Your task to perform on an android device: Go to Maps Image 0: 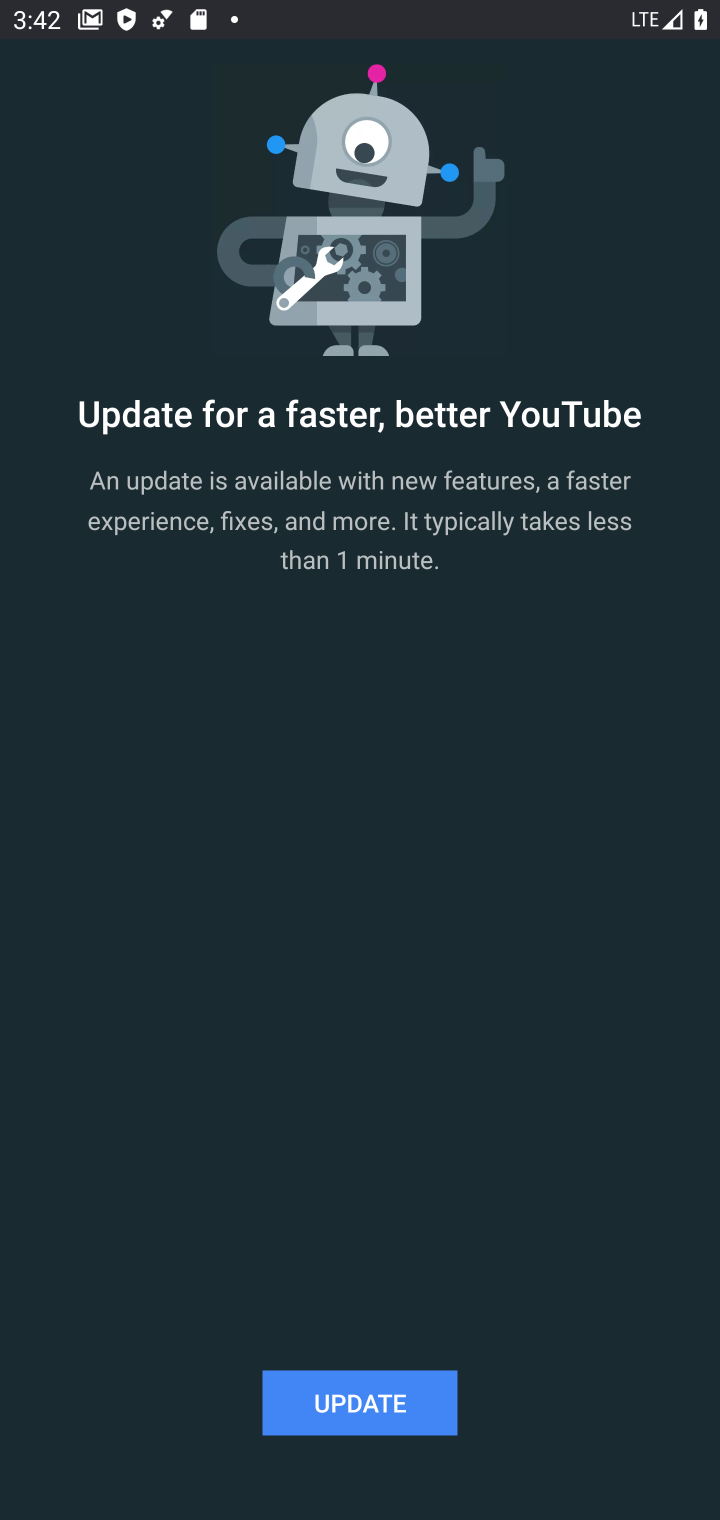
Step 0: press back button
Your task to perform on an android device: Go to Maps Image 1: 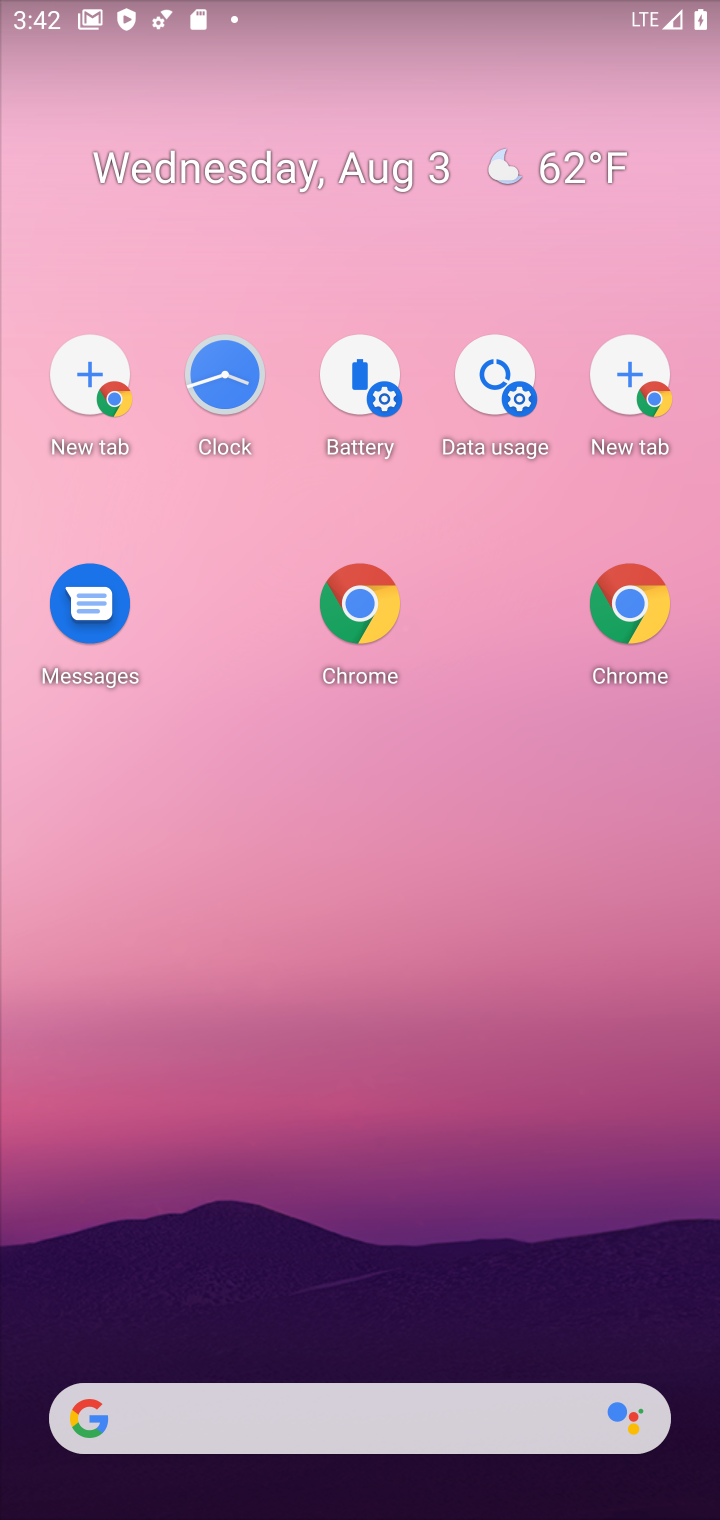
Step 1: drag from (324, 597) to (393, 587)
Your task to perform on an android device: Go to Maps Image 2: 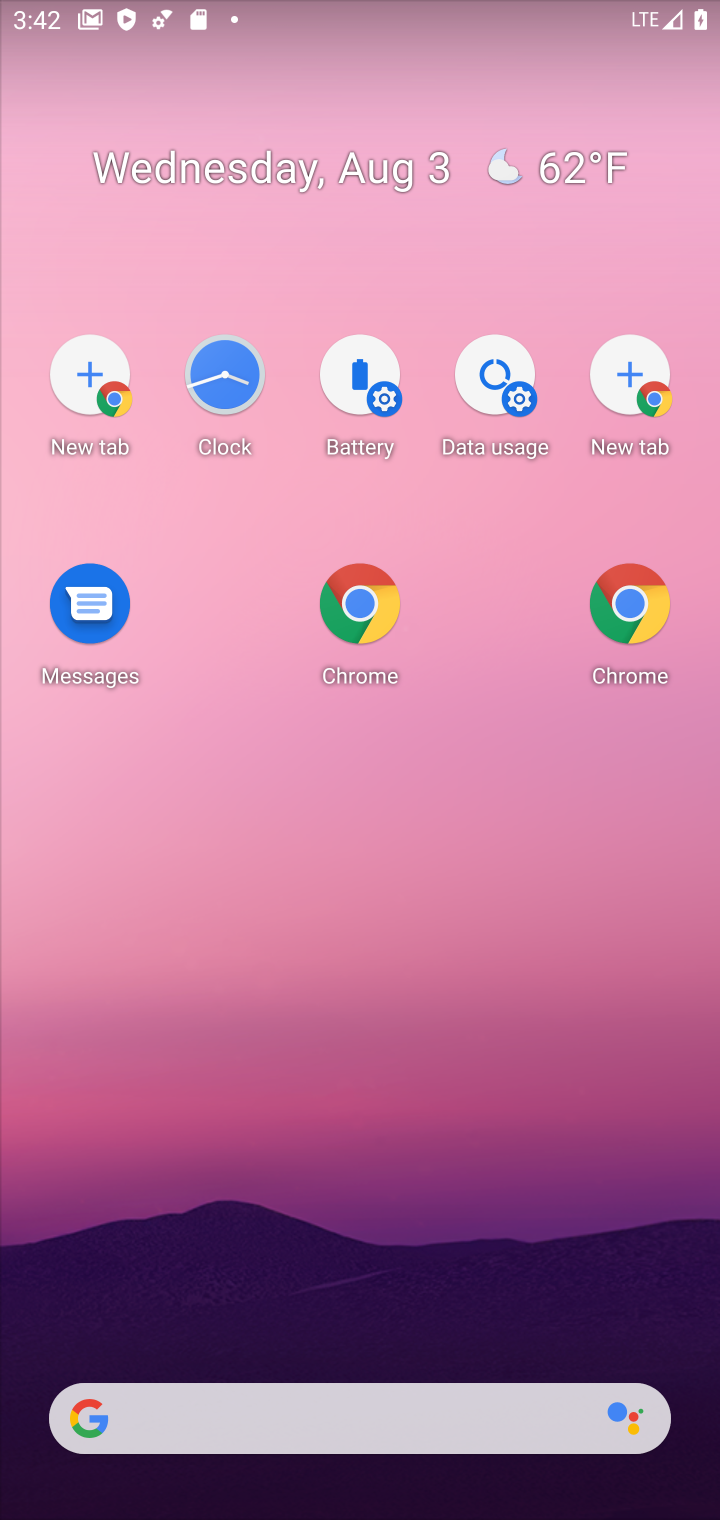
Step 2: press back button
Your task to perform on an android device: Go to Maps Image 3: 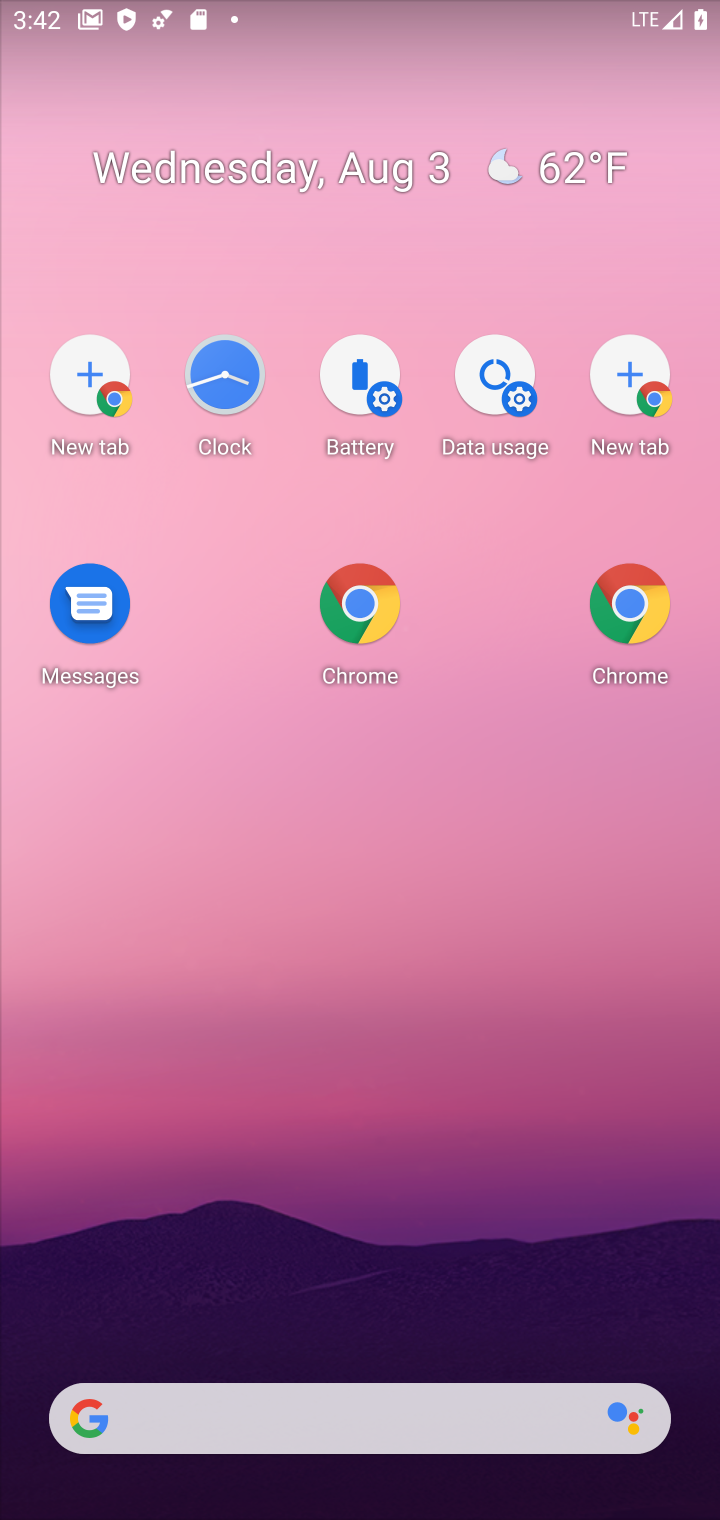
Step 3: click (499, 769)
Your task to perform on an android device: Go to Maps Image 4: 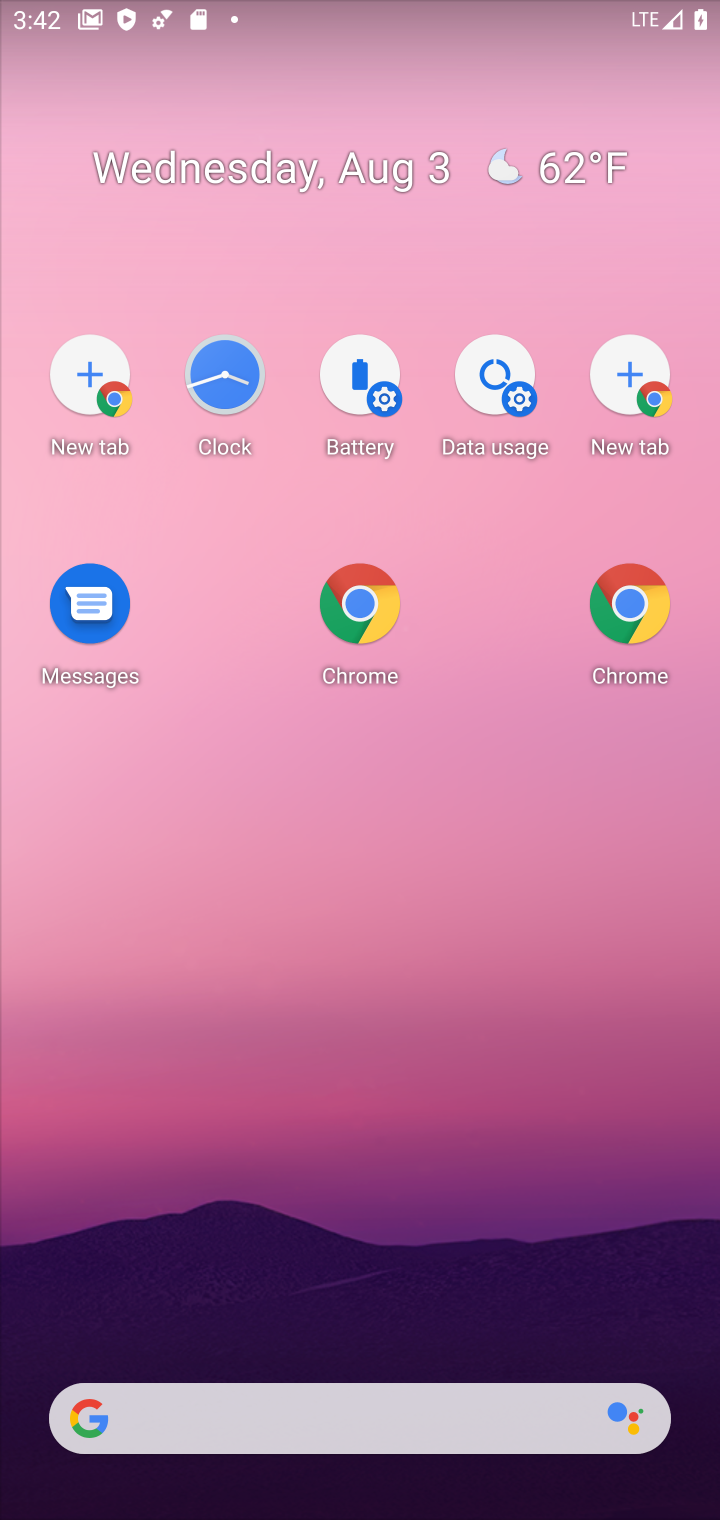
Step 4: drag from (475, 1017) to (595, 847)
Your task to perform on an android device: Go to Maps Image 5: 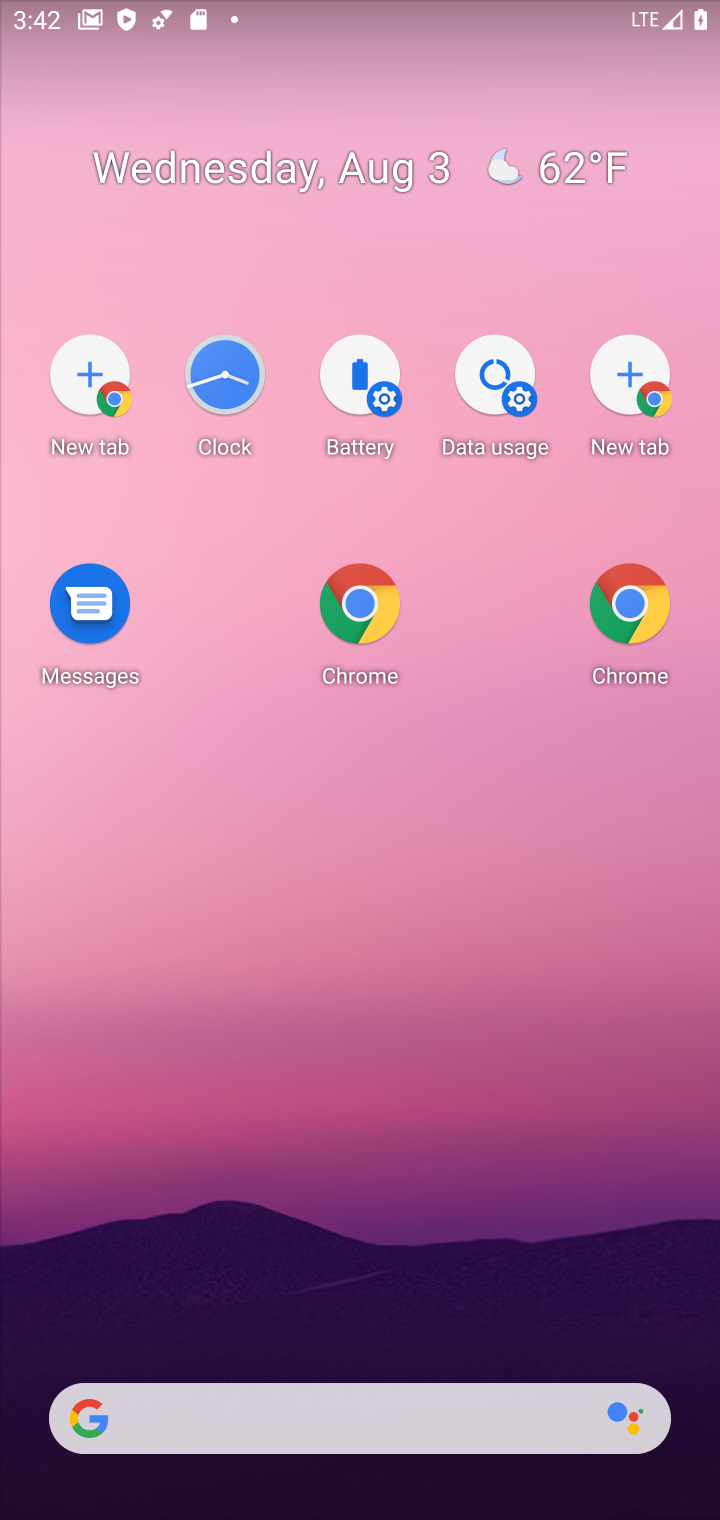
Step 5: drag from (463, 1396) to (223, 392)
Your task to perform on an android device: Go to Maps Image 6: 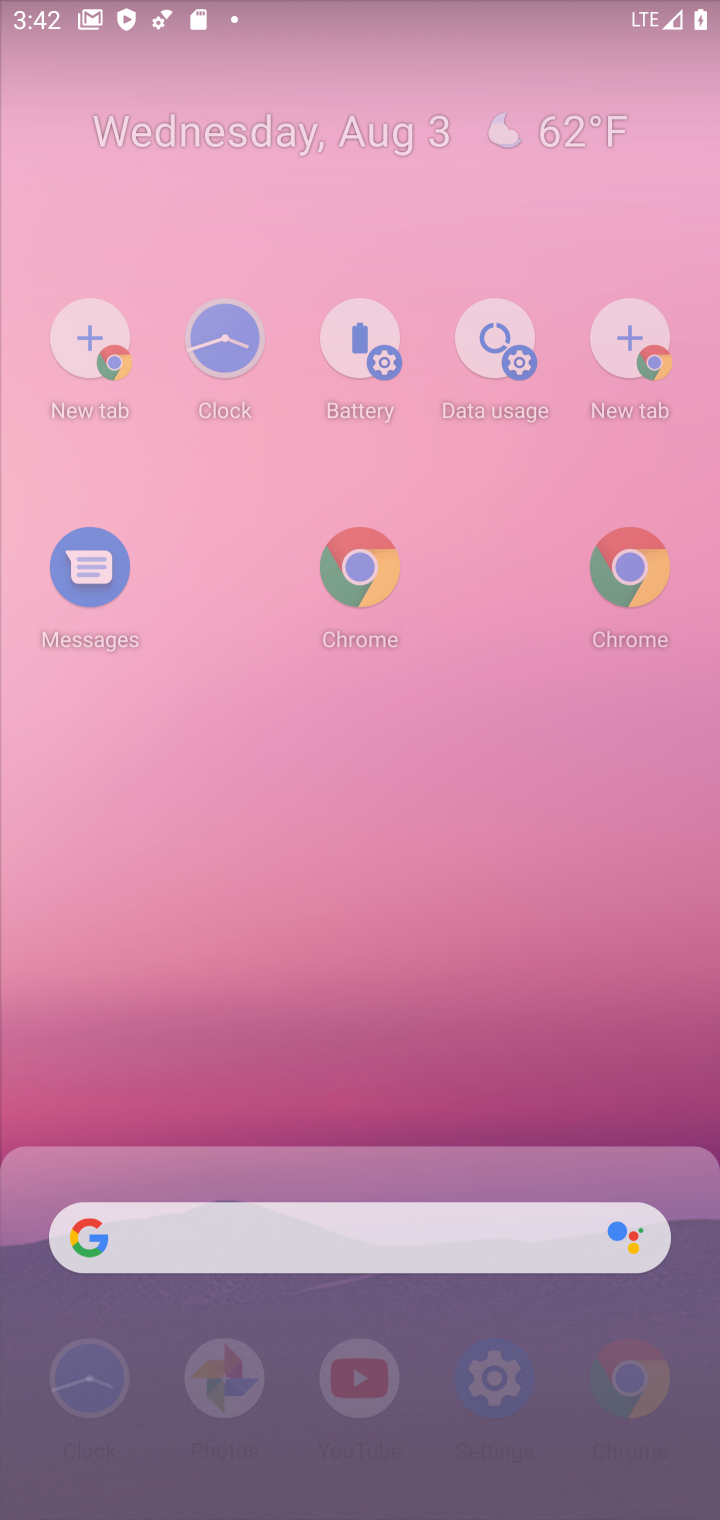
Step 6: click (357, 419)
Your task to perform on an android device: Go to Maps Image 7: 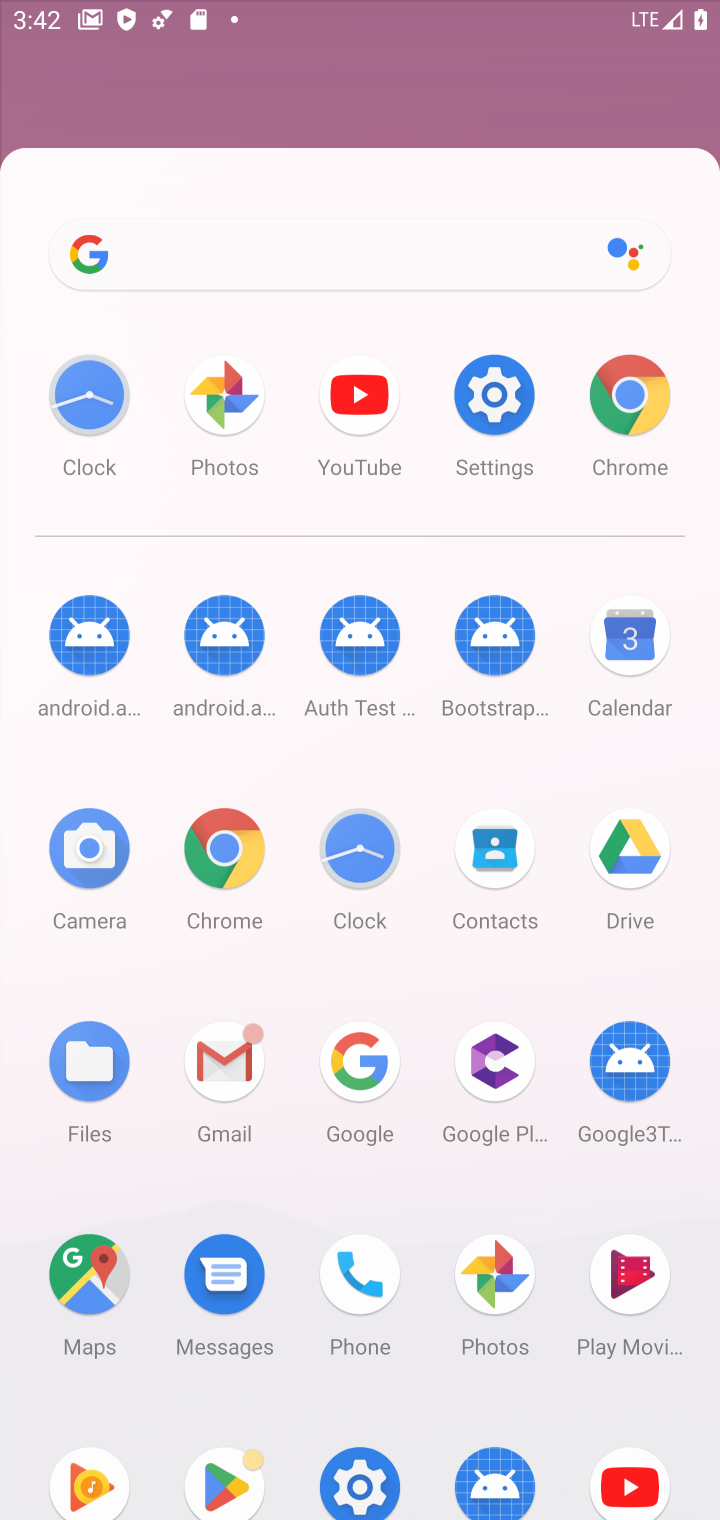
Step 7: drag from (317, 1299) to (310, 254)
Your task to perform on an android device: Go to Maps Image 8: 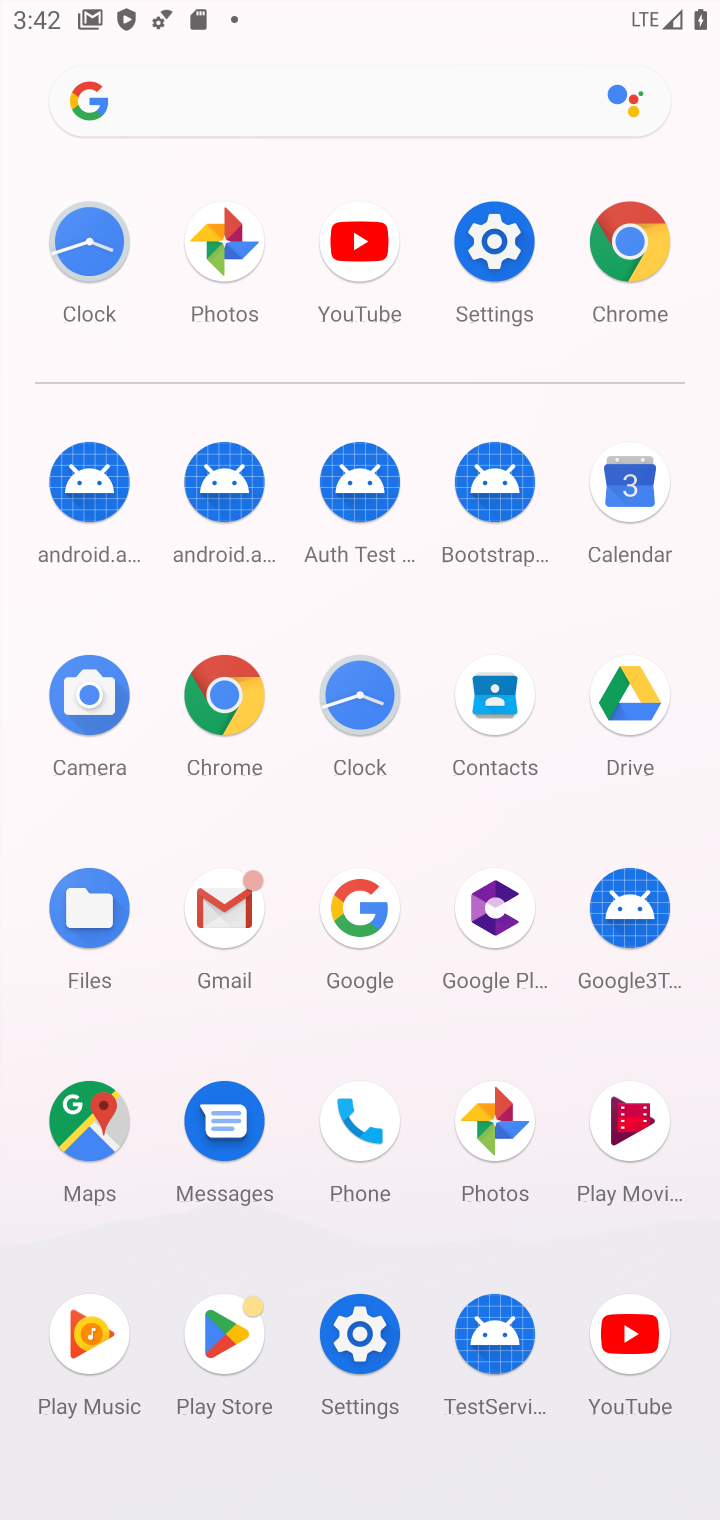
Step 8: click (77, 1107)
Your task to perform on an android device: Go to Maps Image 9: 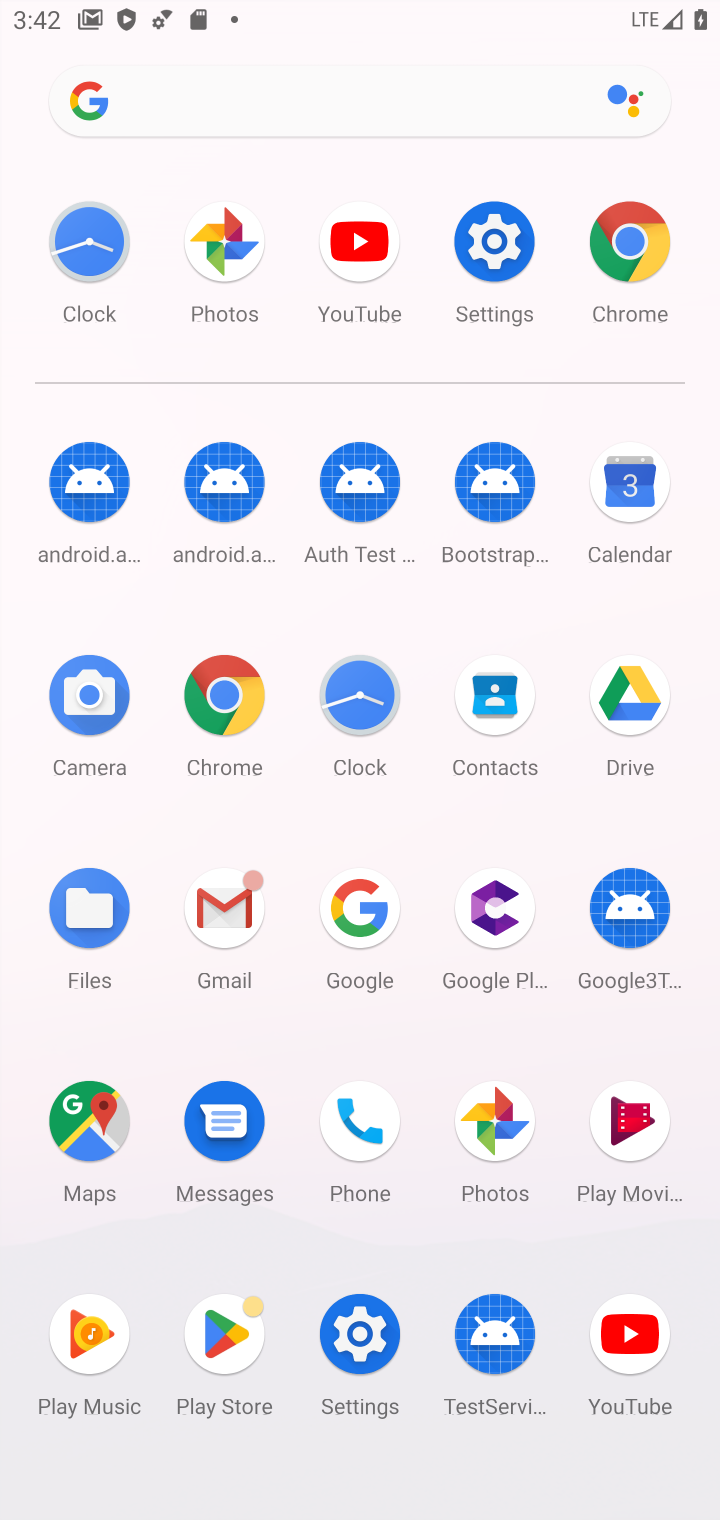
Step 9: click (72, 1103)
Your task to perform on an android device: Go to Maps Image 10: 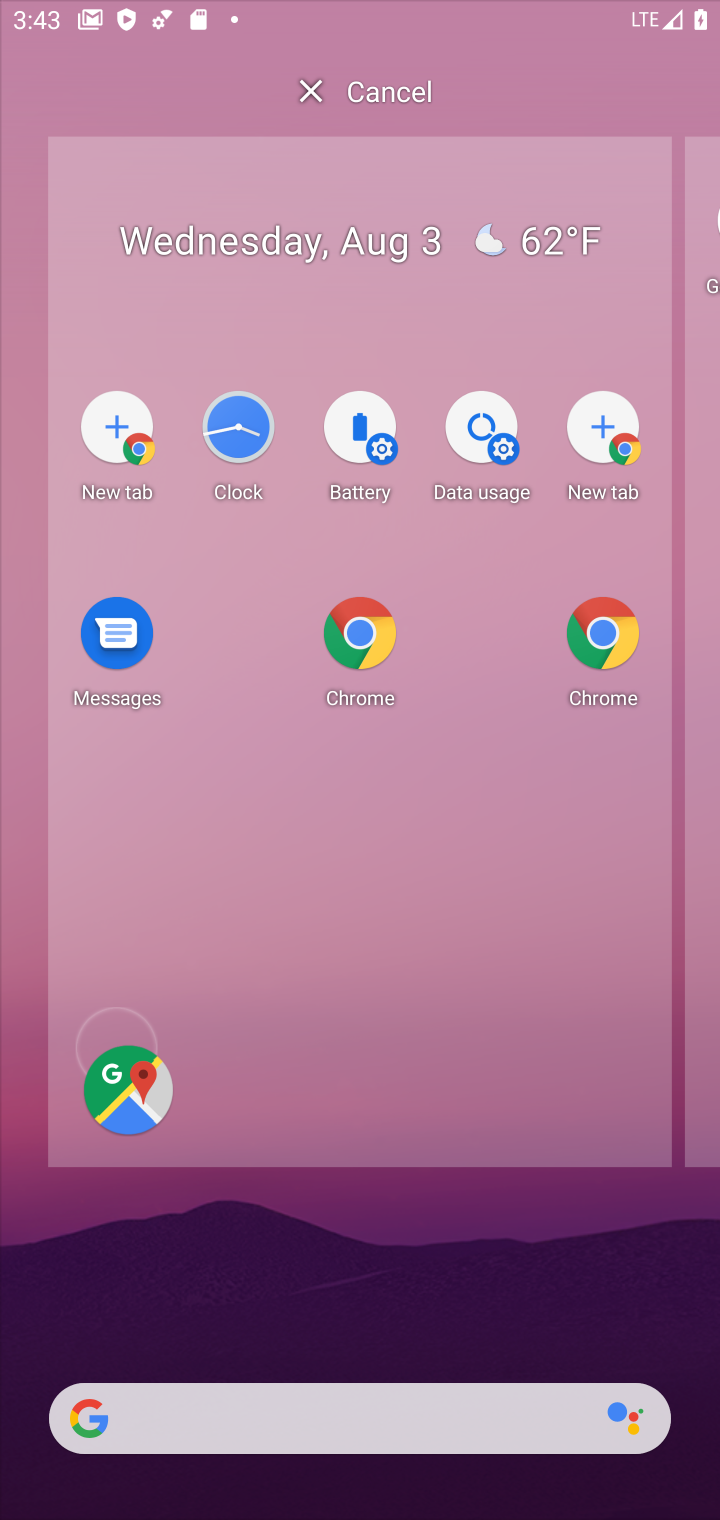
Step 10: drag from (442, 1283) to (452, 738)
Your task to perform on an android device: Go to Maps Image 11: 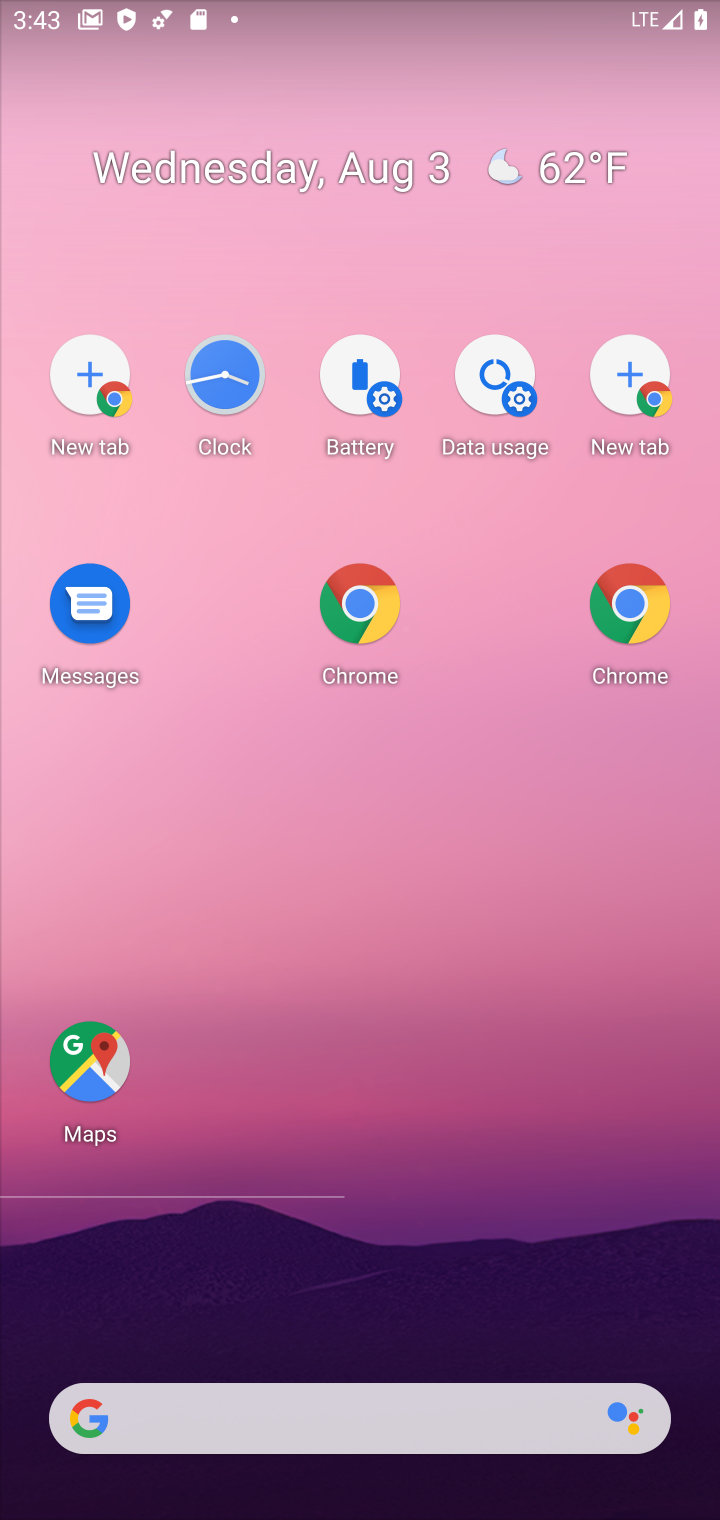
Step 11: drag from (480, 1115) to (576, 390)
Your task to perform on an android device: Go to Maps Image 12: 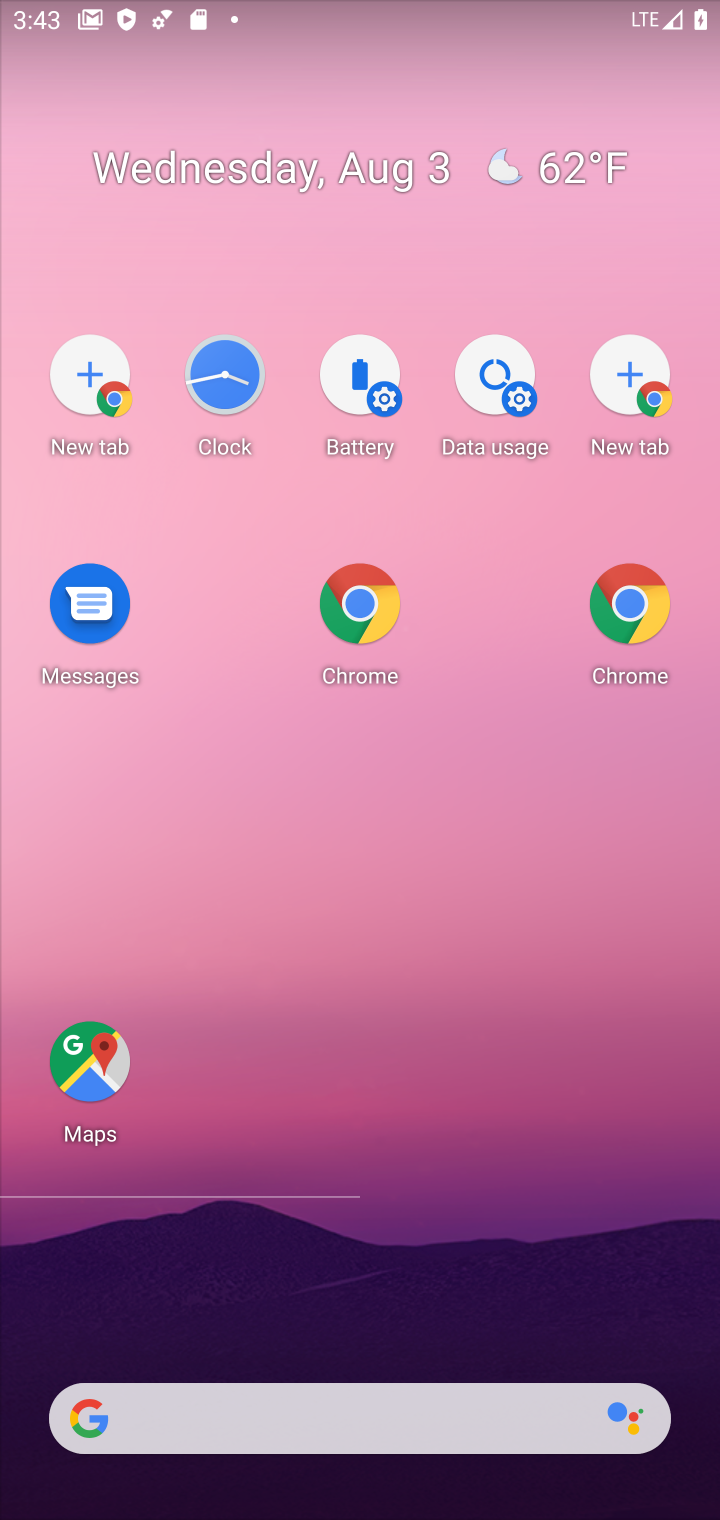
Step 12: click (534, 342)
Your task to perform on an android device: Go to Maps Image 13: 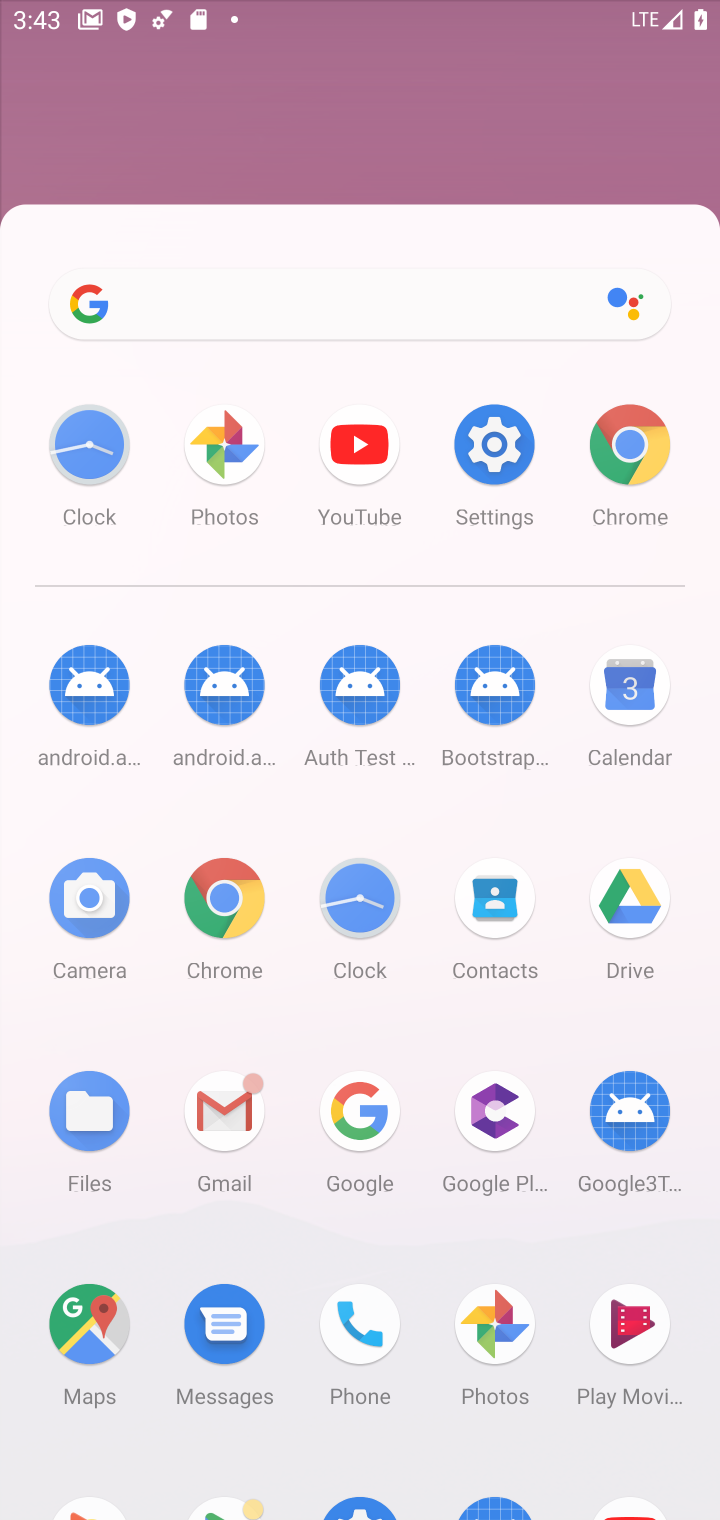
Step 13: drag from (516, 421) to (574, 342)
Your task to perform on an android device: Go to Maps Image 14: 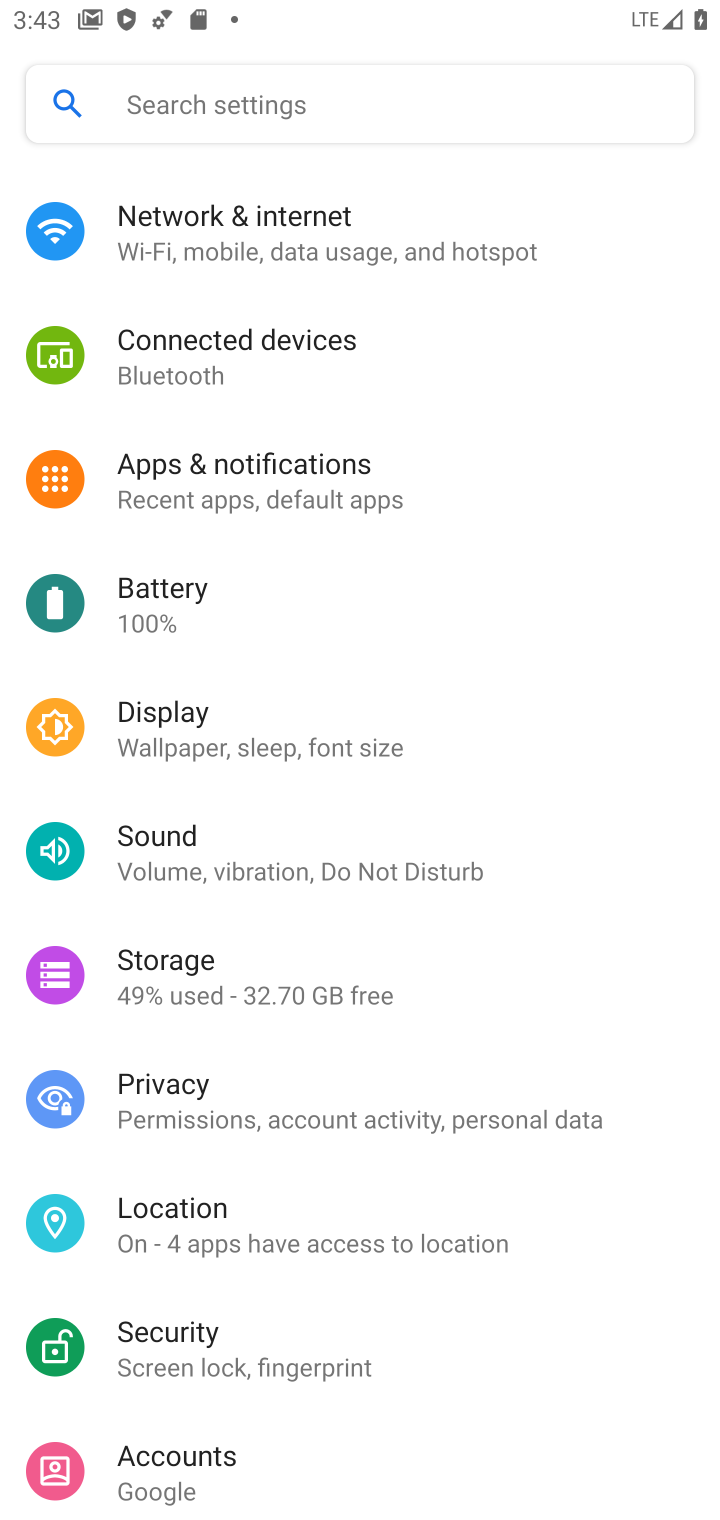
Step 14: click (106, 1128)
Your task to perform on an android device: Go to Maps Image 15: 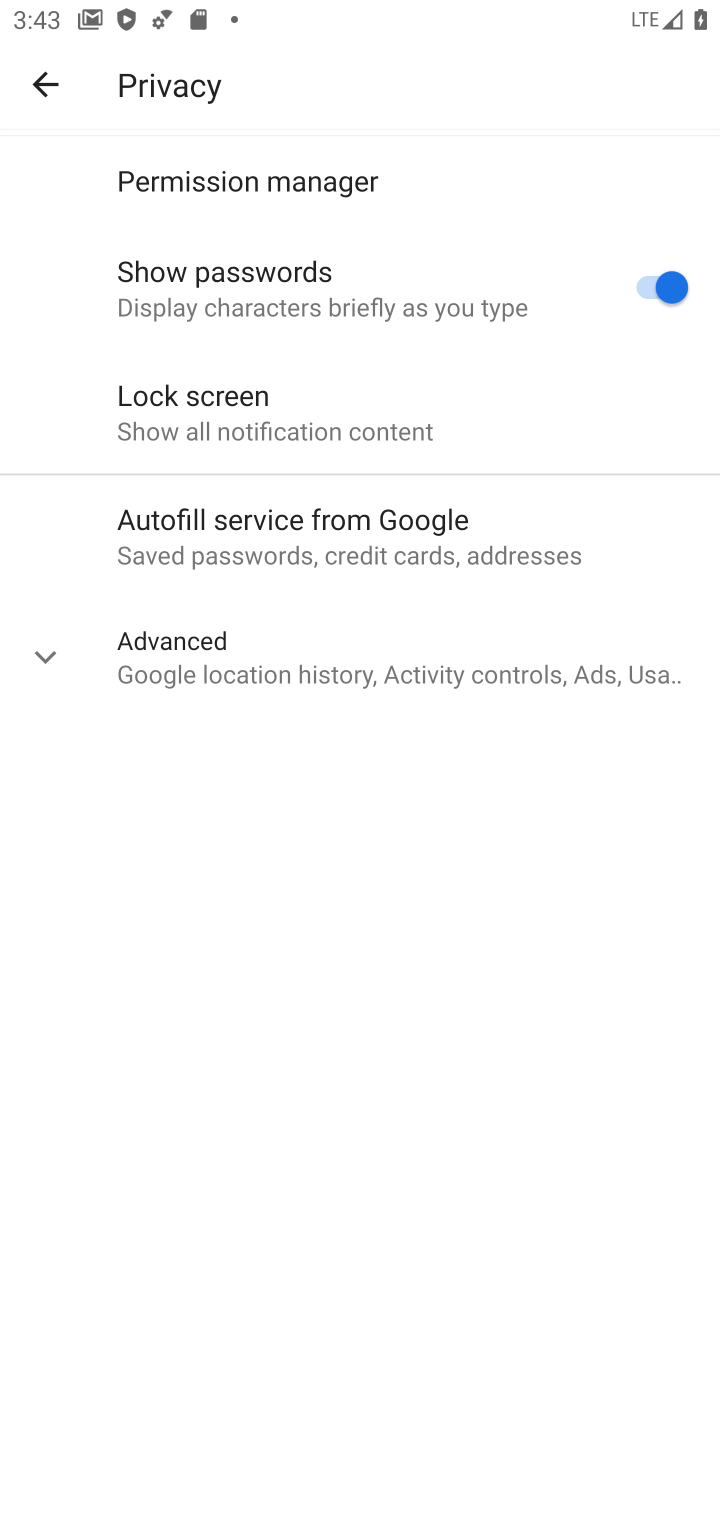
Step 15: press back button
Your task to perform on an android device: Go to Maps Image 16: 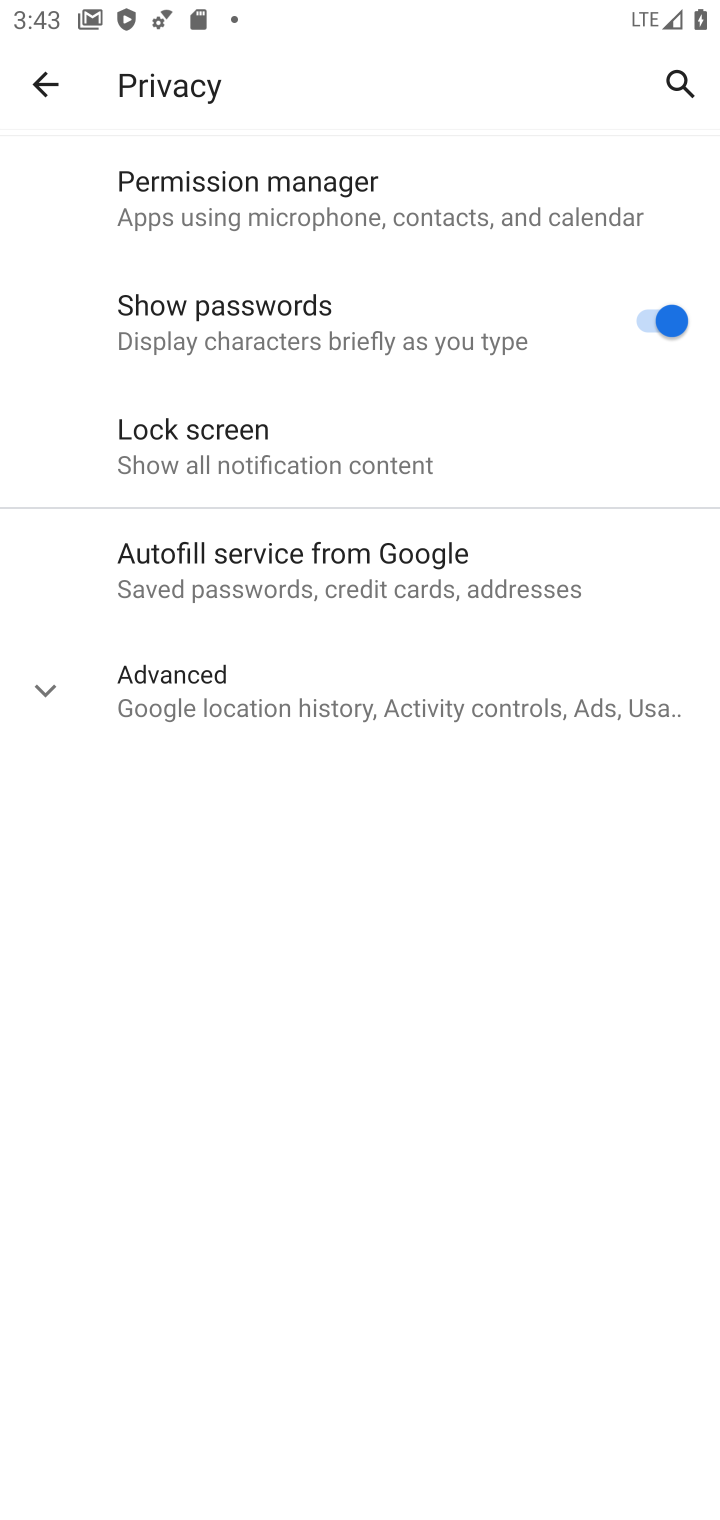
Step 16: press back button
Your task to perform on an android device: Go to Maps Image 17: 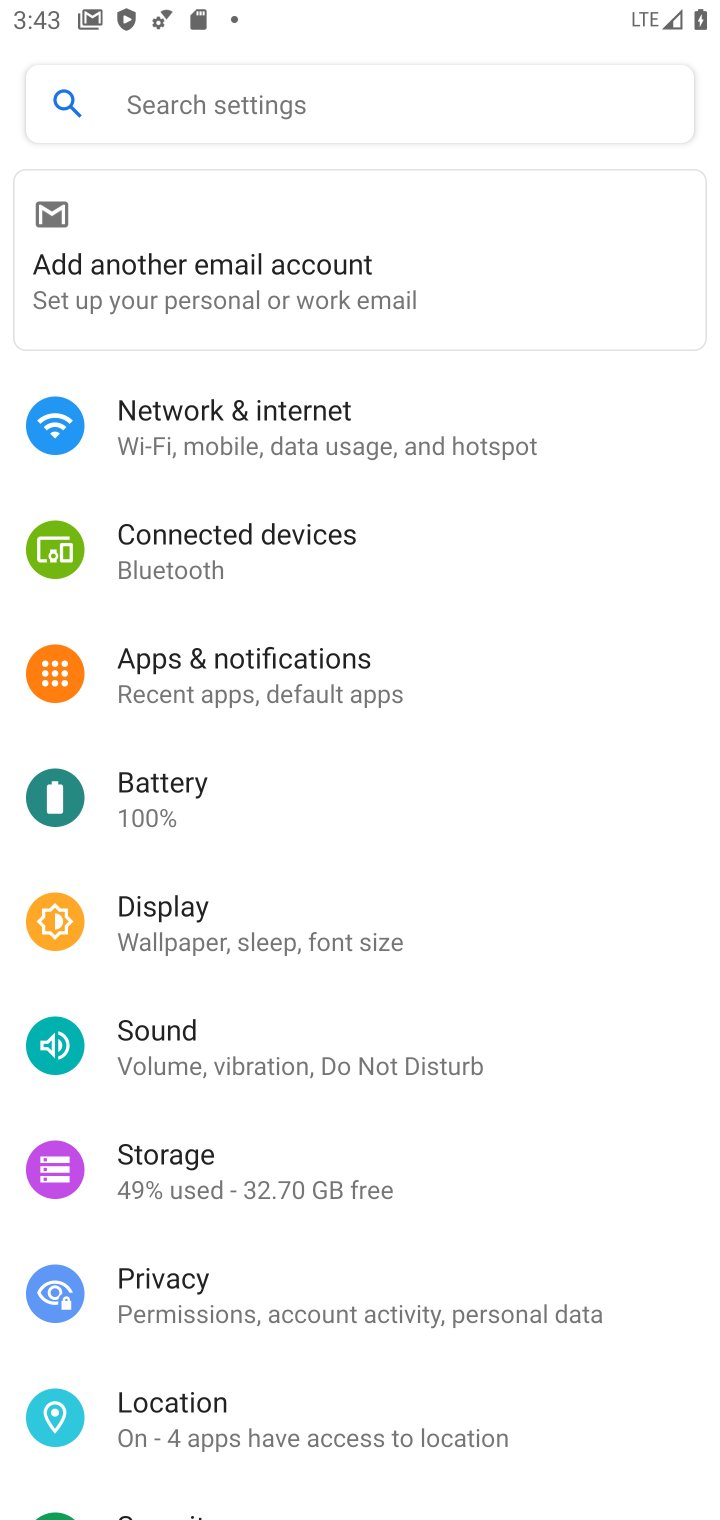
Step 17: click (64, 79)
Your task to perform on an android device: Go to Maps Image 18: 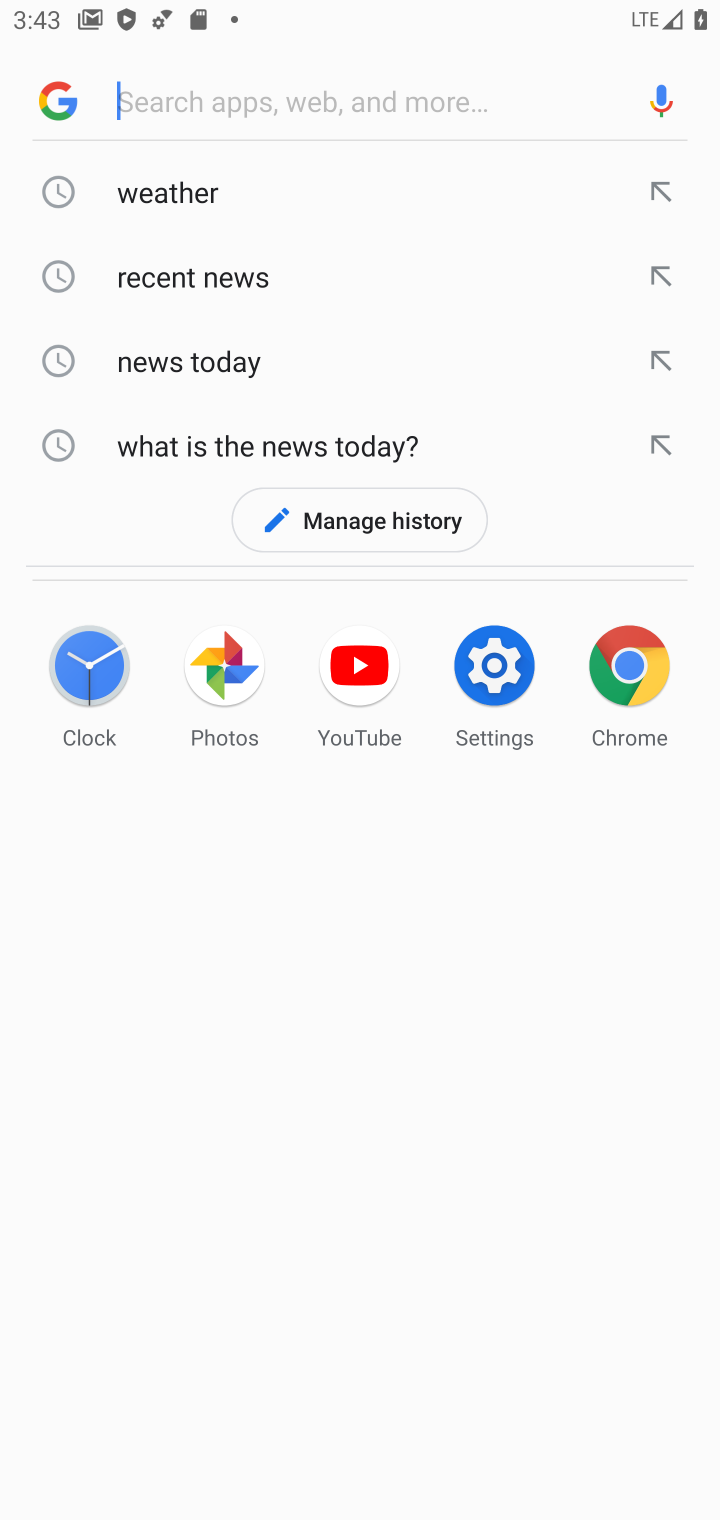
Step 18: press back button
Your task to perform on an android device: Go to Maps Image 19: 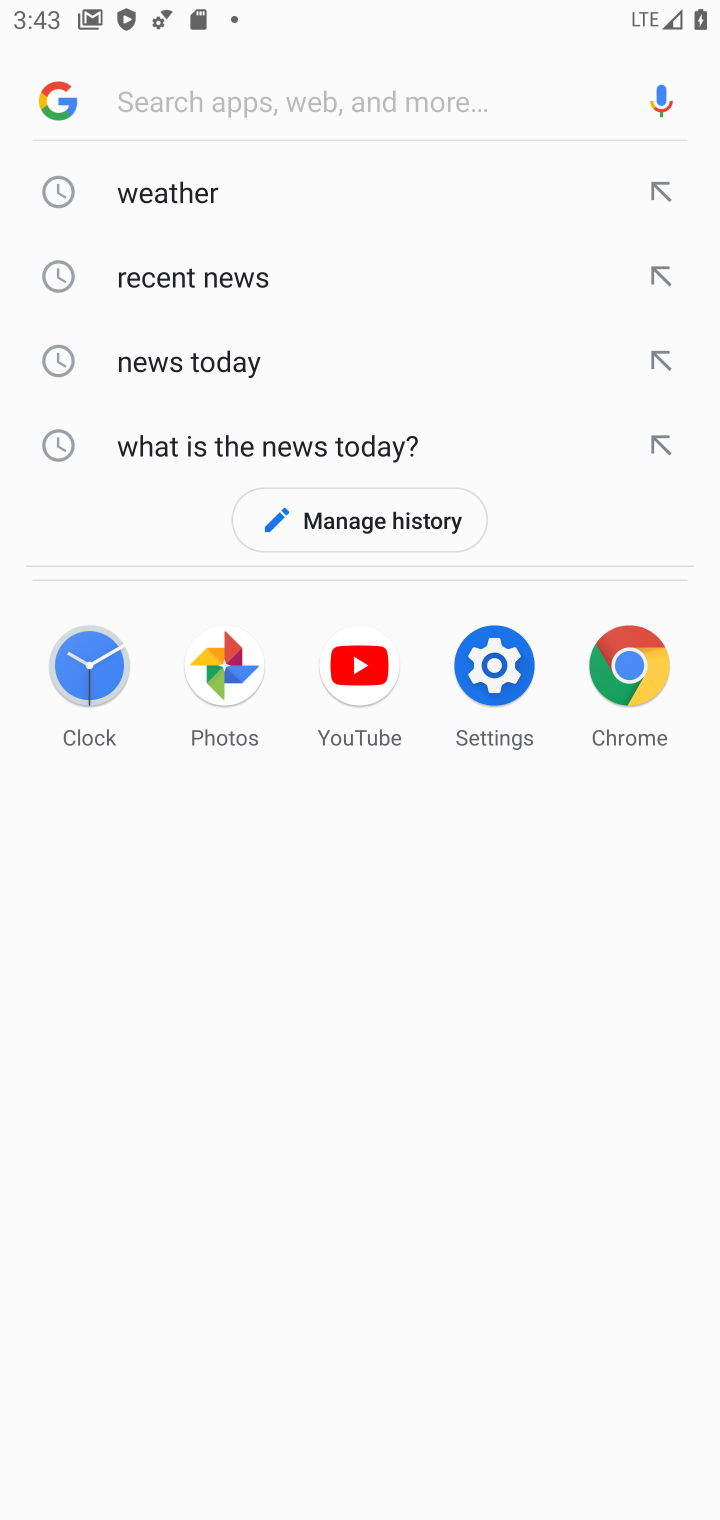
Step 19: press back button
Your task to perform on an android device: Go to Maps Image 20: 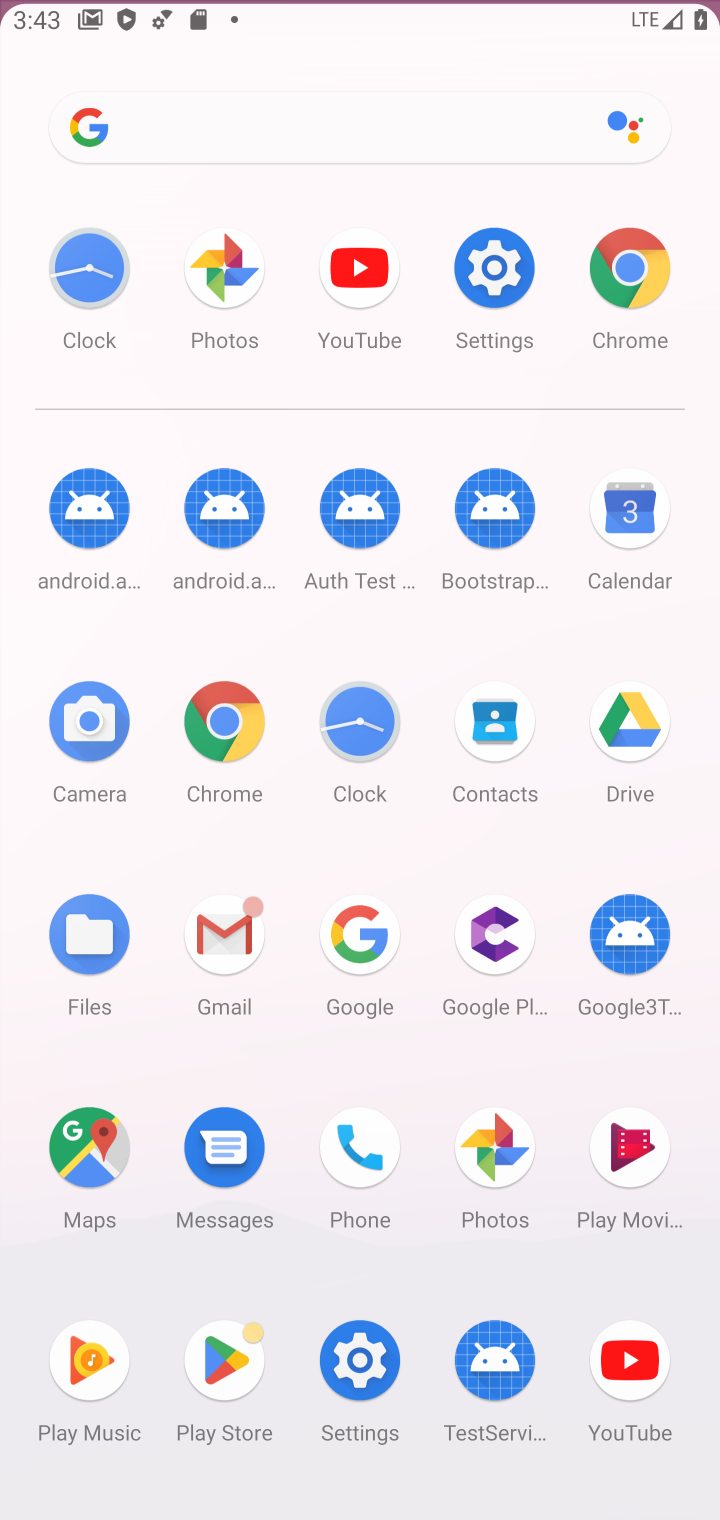
Step 20: press back button
Your task to perform on an android device: Go to Maps Image 21: 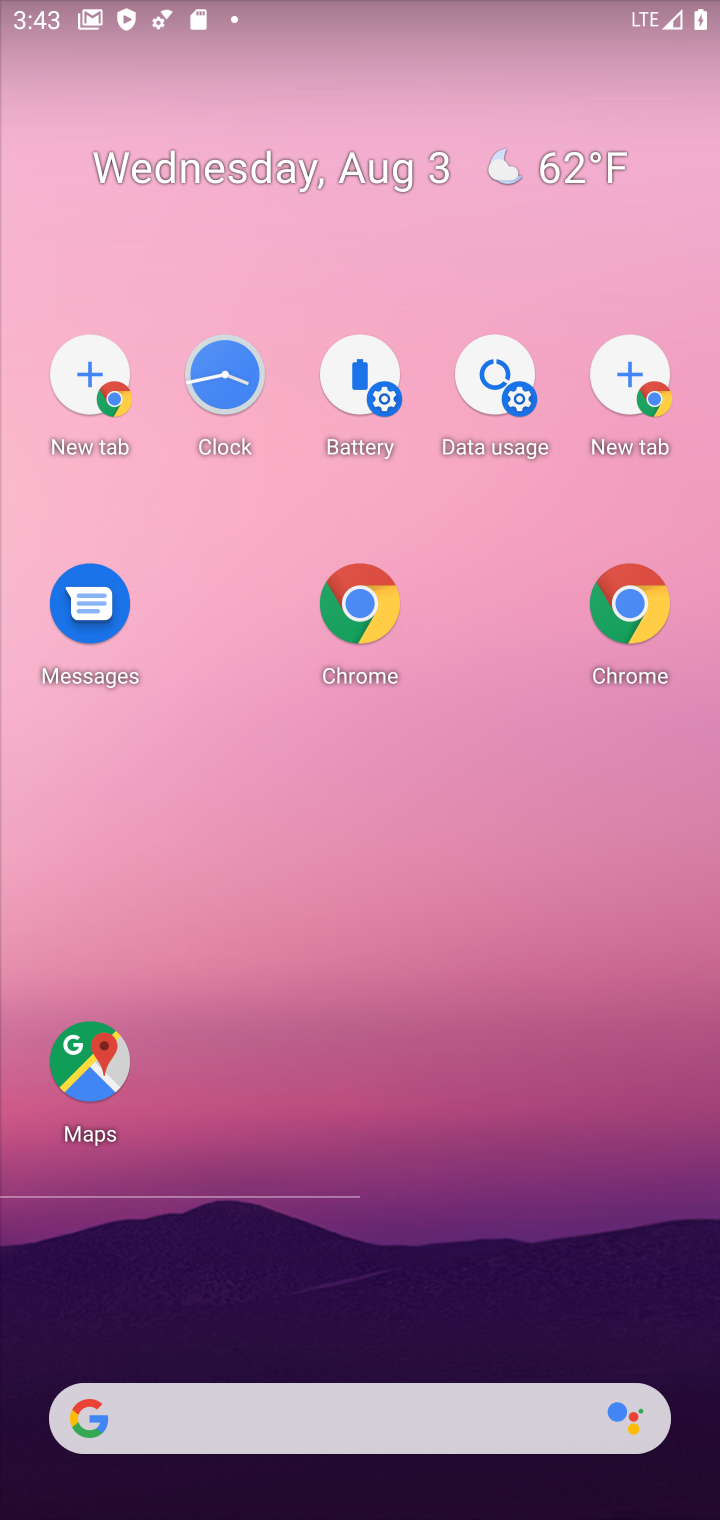
Step 21: click (105, 1059)
Your task to perform on an android device: Go to Maps Image 22: 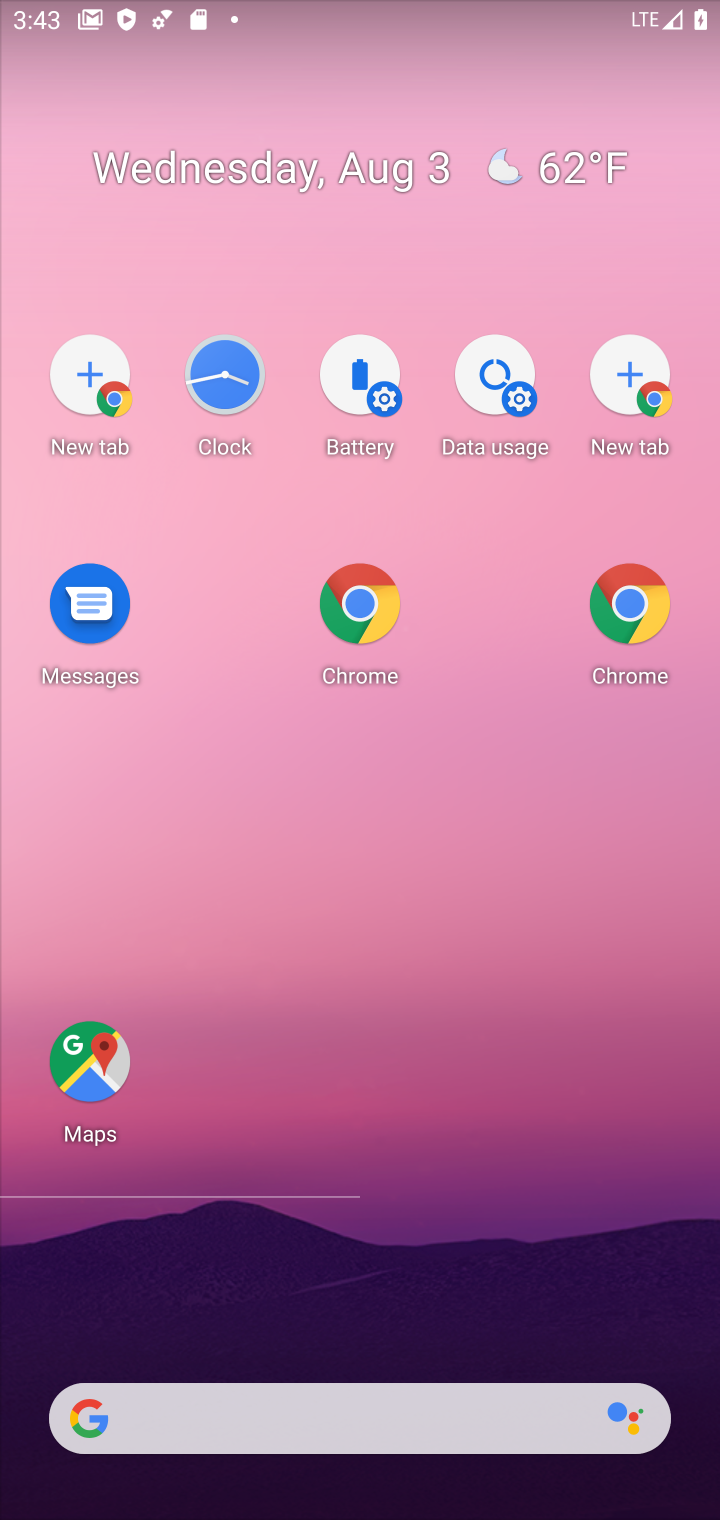
Step 22: click (111, 1059)
Your task to perform on an android device: Go to Maps Image 23: 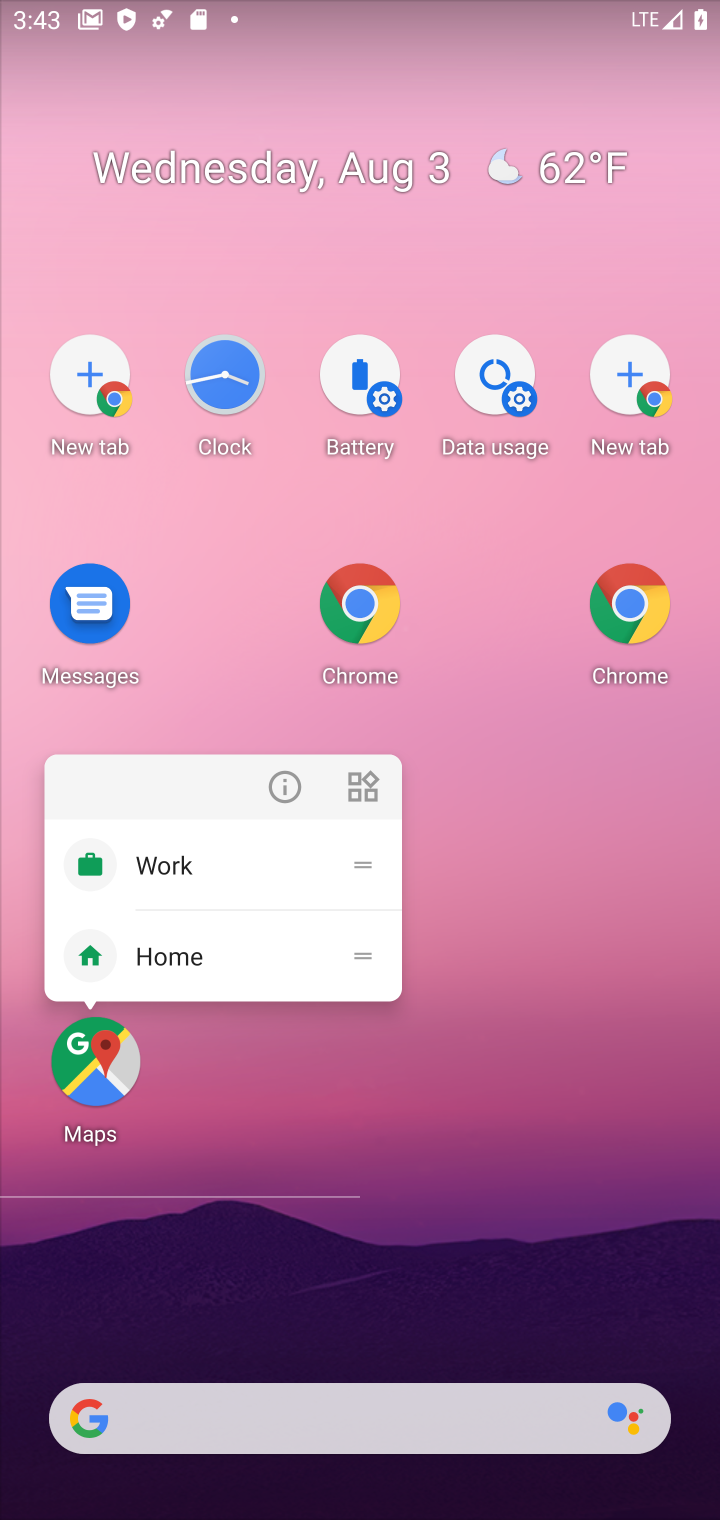
Step 23: click (77, 1059)
Your task to perform on an android device: Go to Maps Image 24: 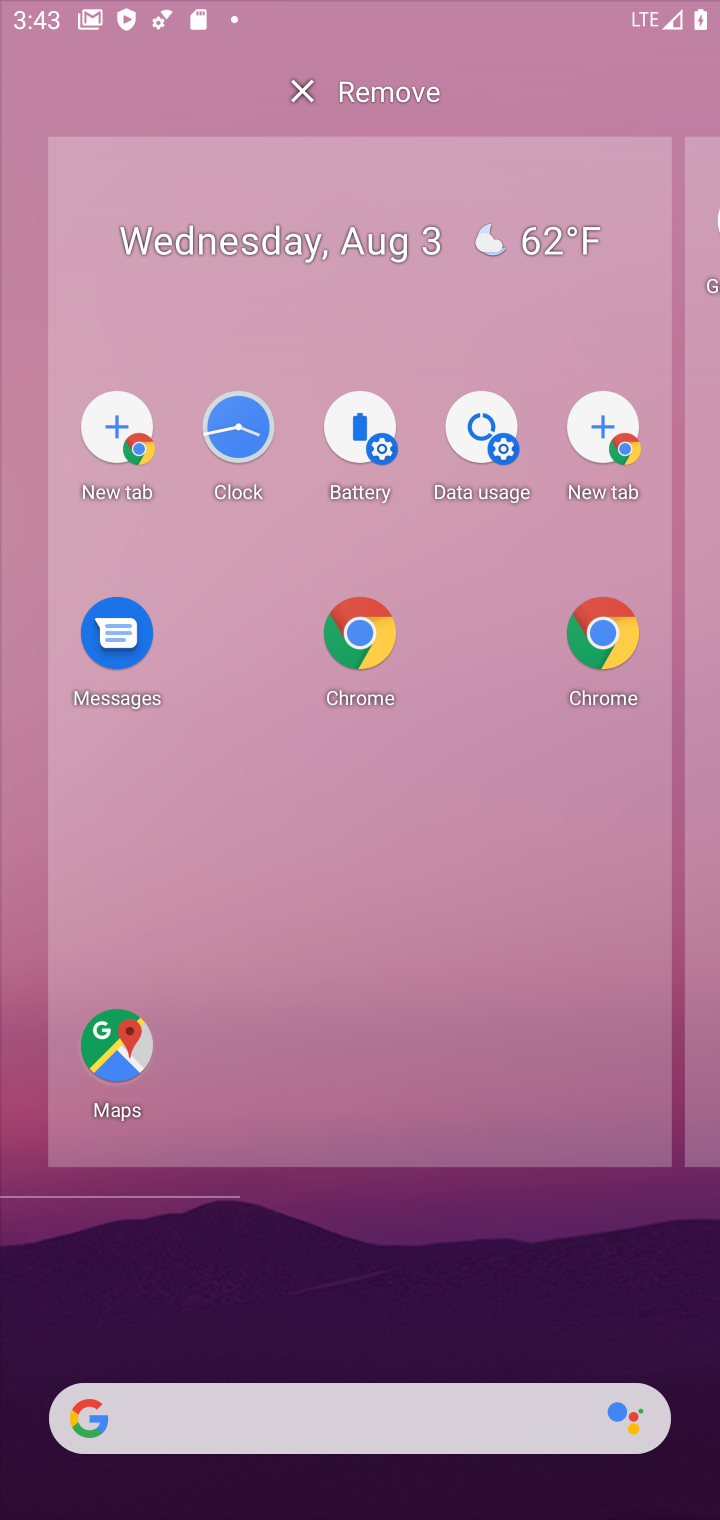
Step 24: drag from (356, 1410) to (486, 543)
Your task to perform on an android device: Go to Maps Image 25: 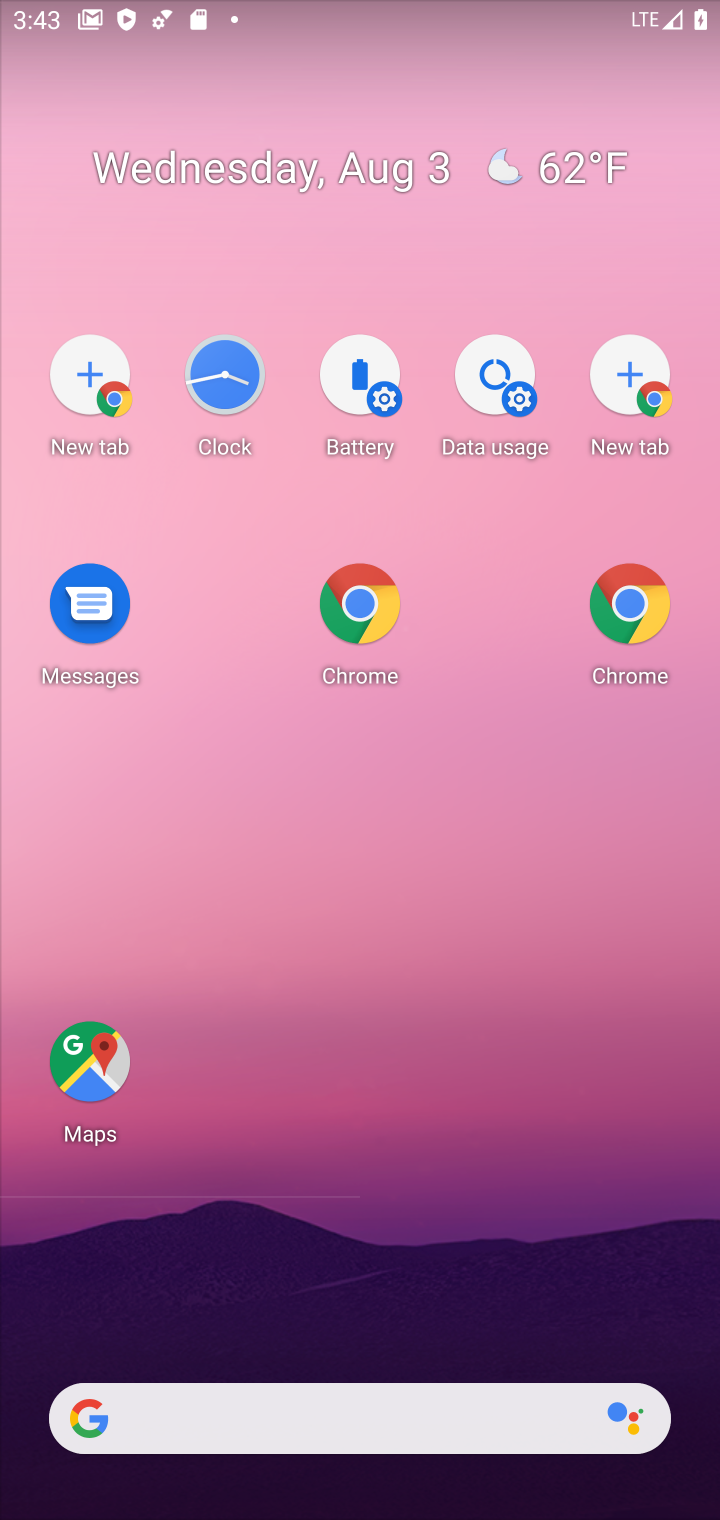
Step 25: drag from (448, 173) to (381, 115)
Your task to perform on an android device: Go to Maps Image 26: 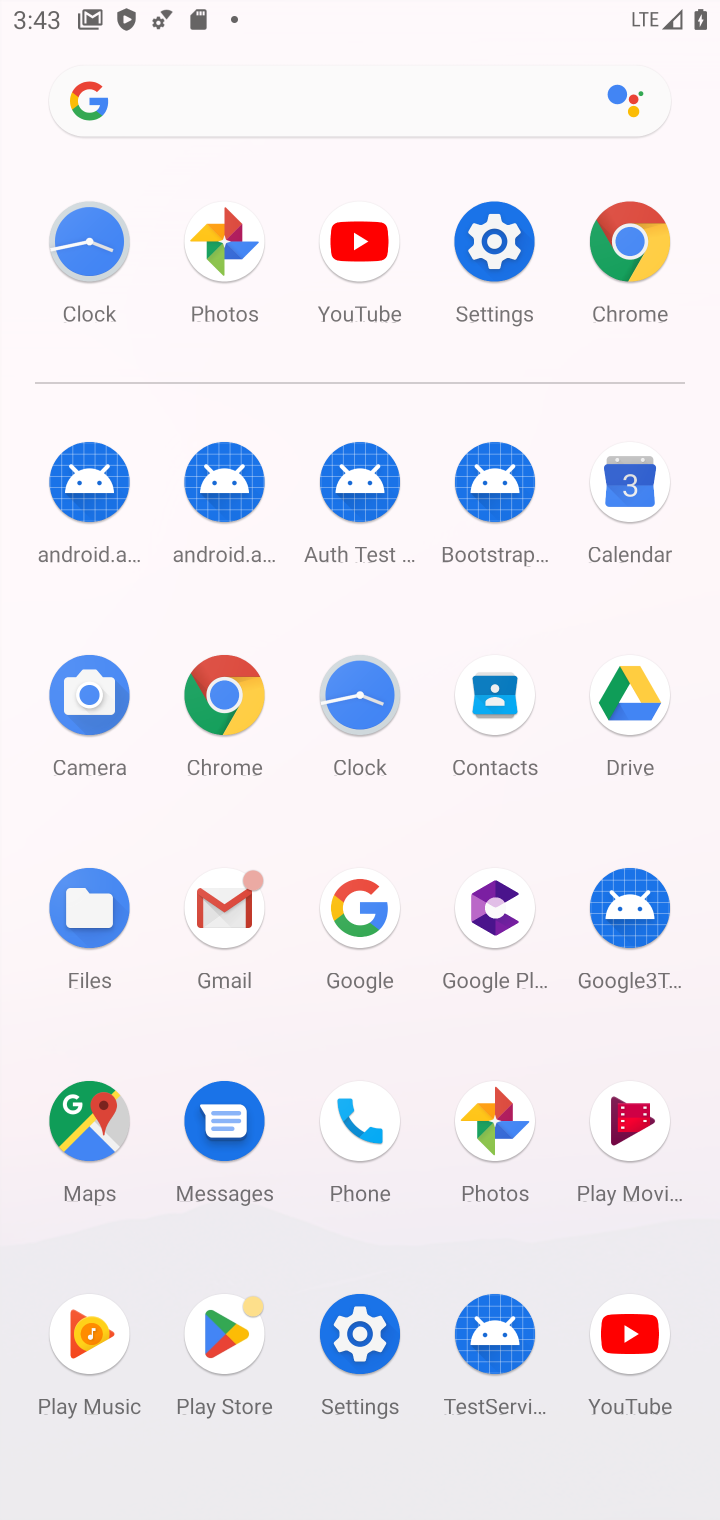
Step 26: click (134, 1092)
Your task to perform on an android device: Go to Maps Image 27: 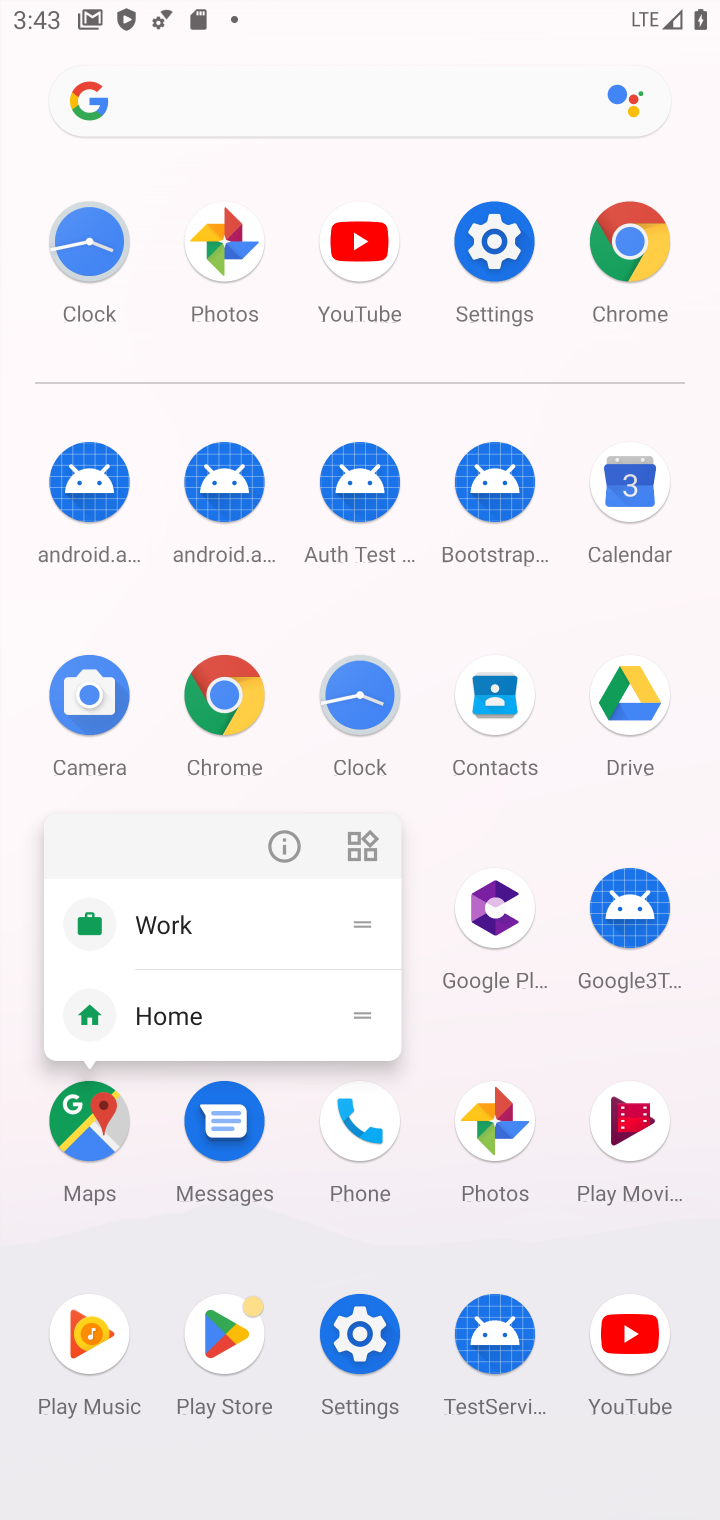
Step 27: click (71, 1106)
Your task to perform on an android device: Go to Maps Image 28: 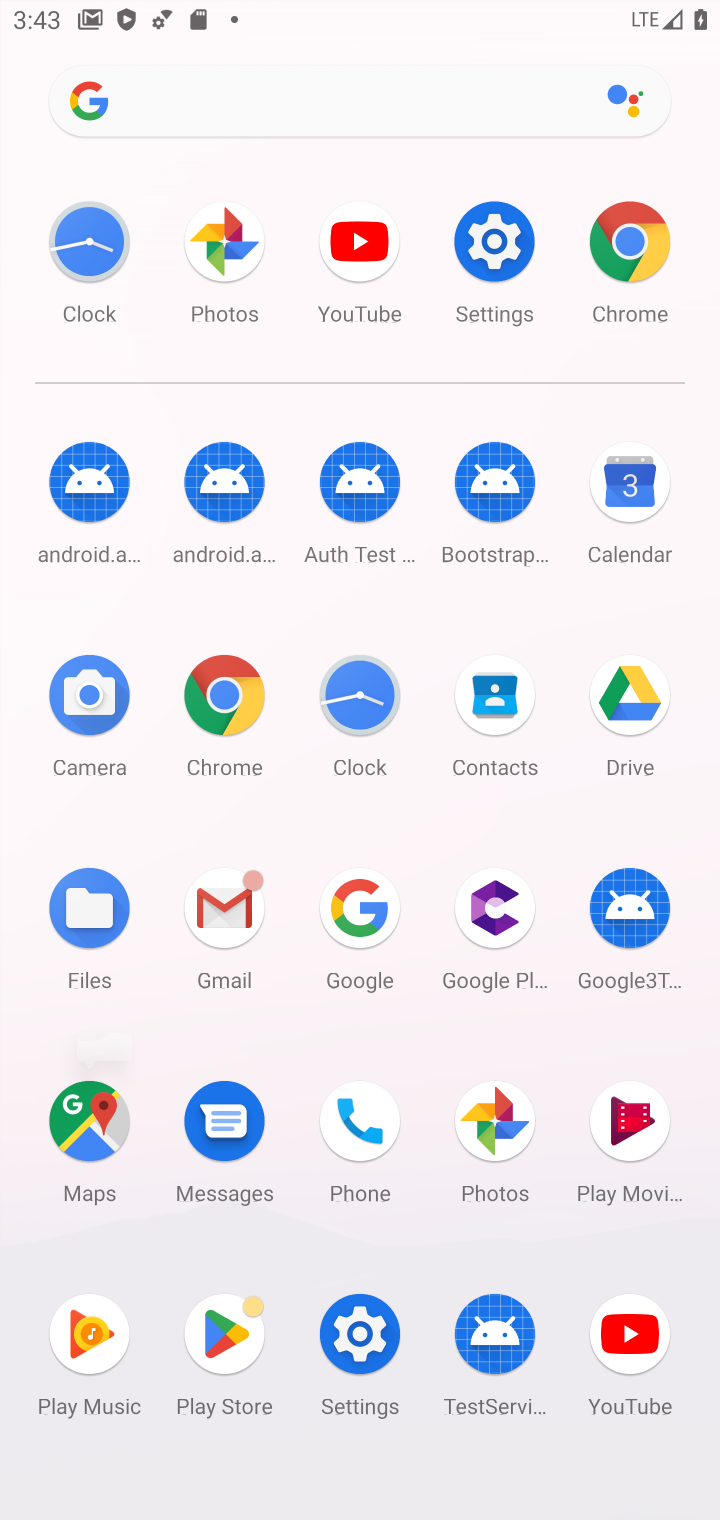
Step 28: click (83, 1110)
Your task to perform on an android device: Go to Maps Image 29: 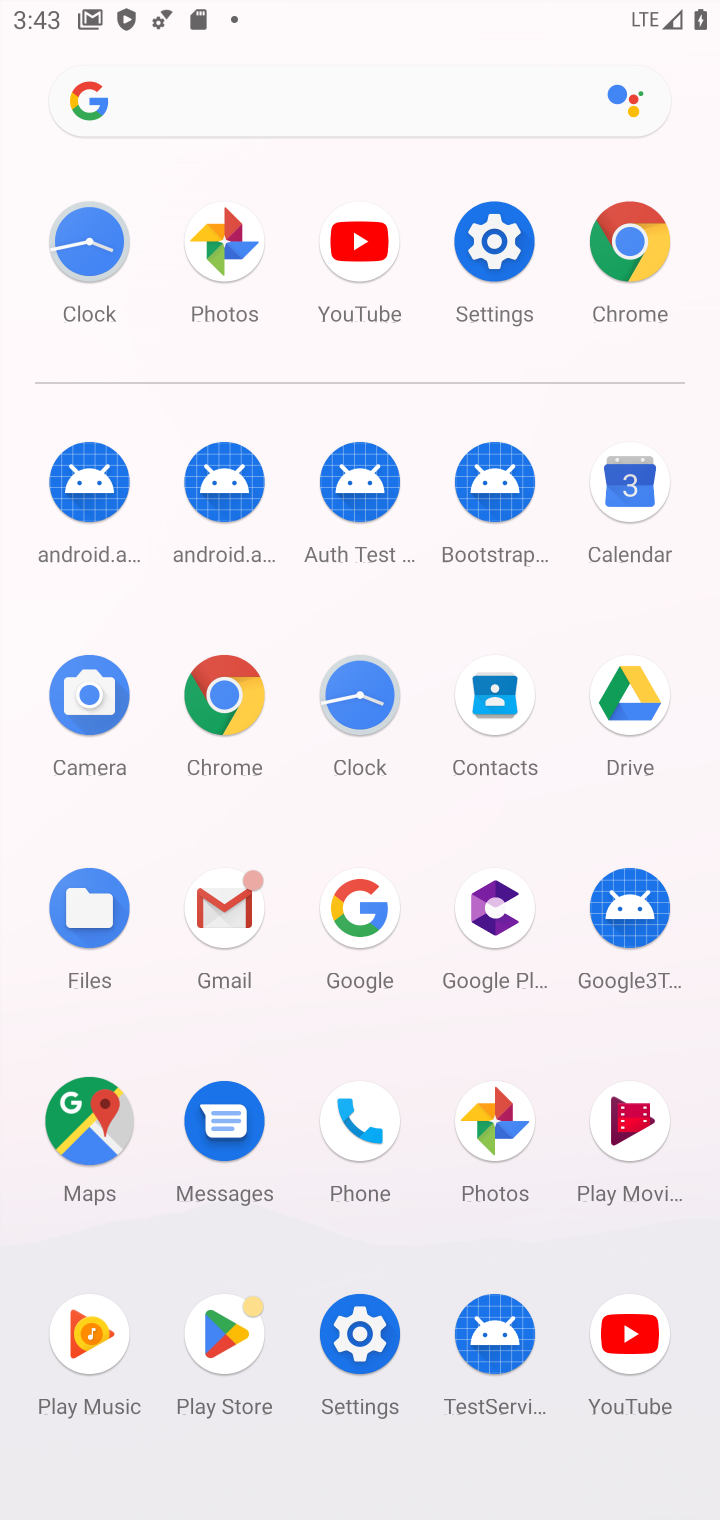
Step 29: click (83, 1110)
Your task to perform on an android device: Go to Maps Image 30: 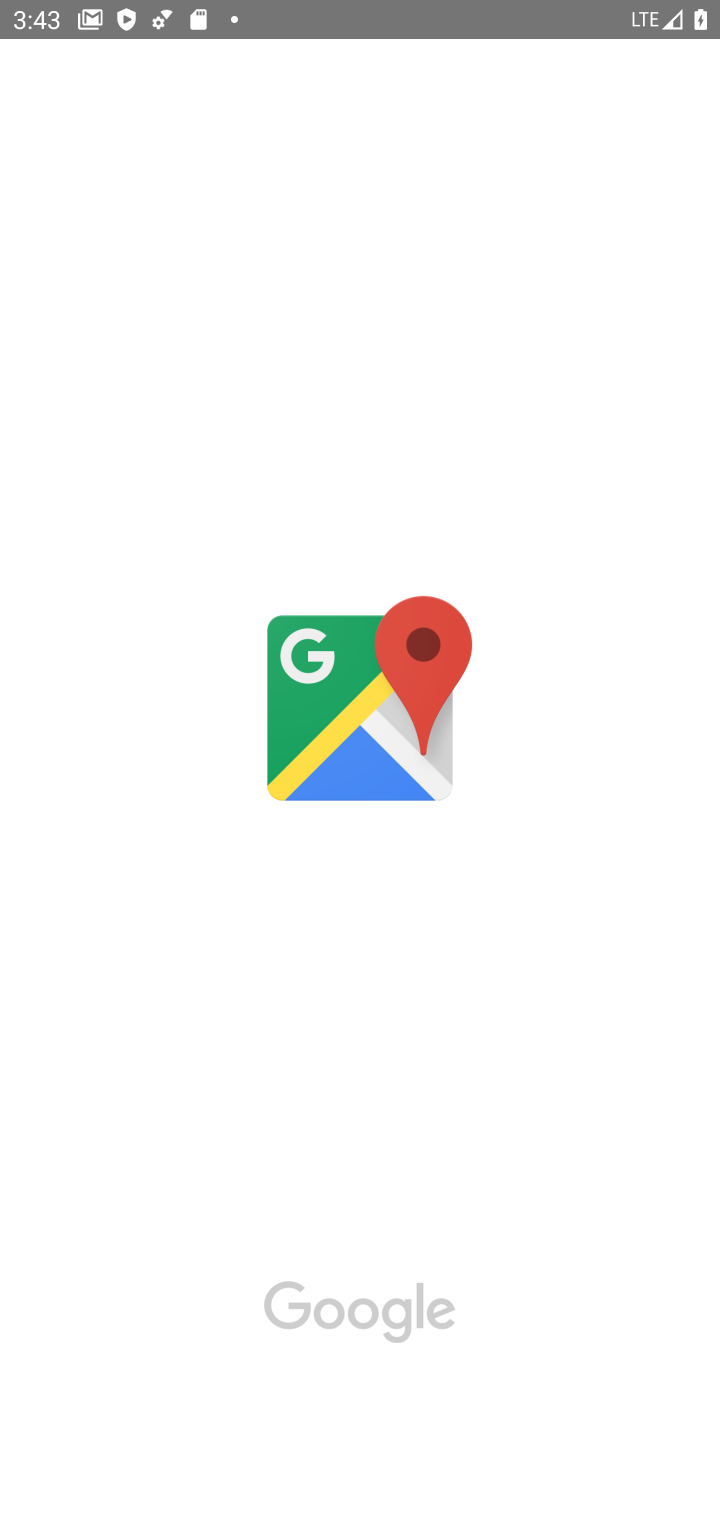
Step 30: click (83, 1110)
Your task to perform on an android device: Go to Maps Image 31: 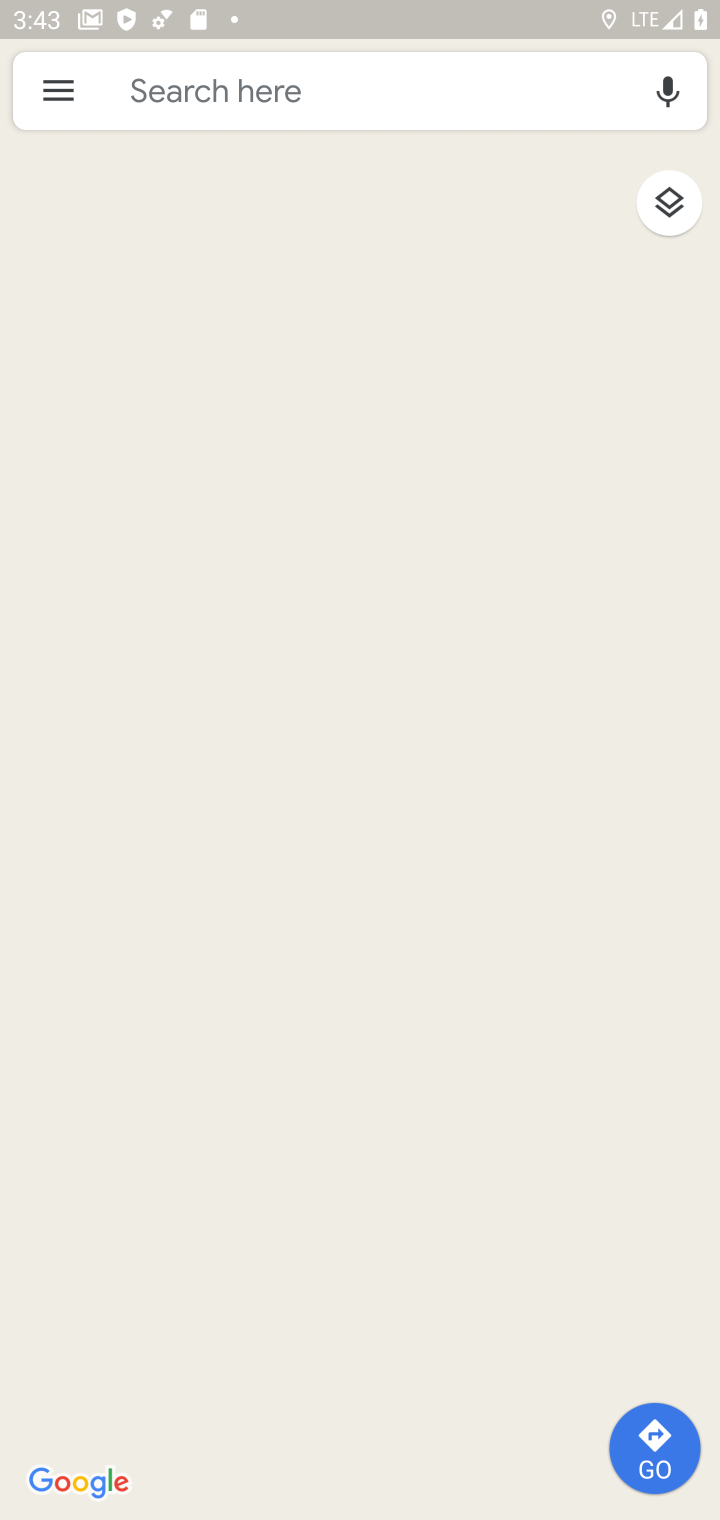
Step 31: click (83, 1110)
Your task to perform on an android device: Go to Maps Image 32: 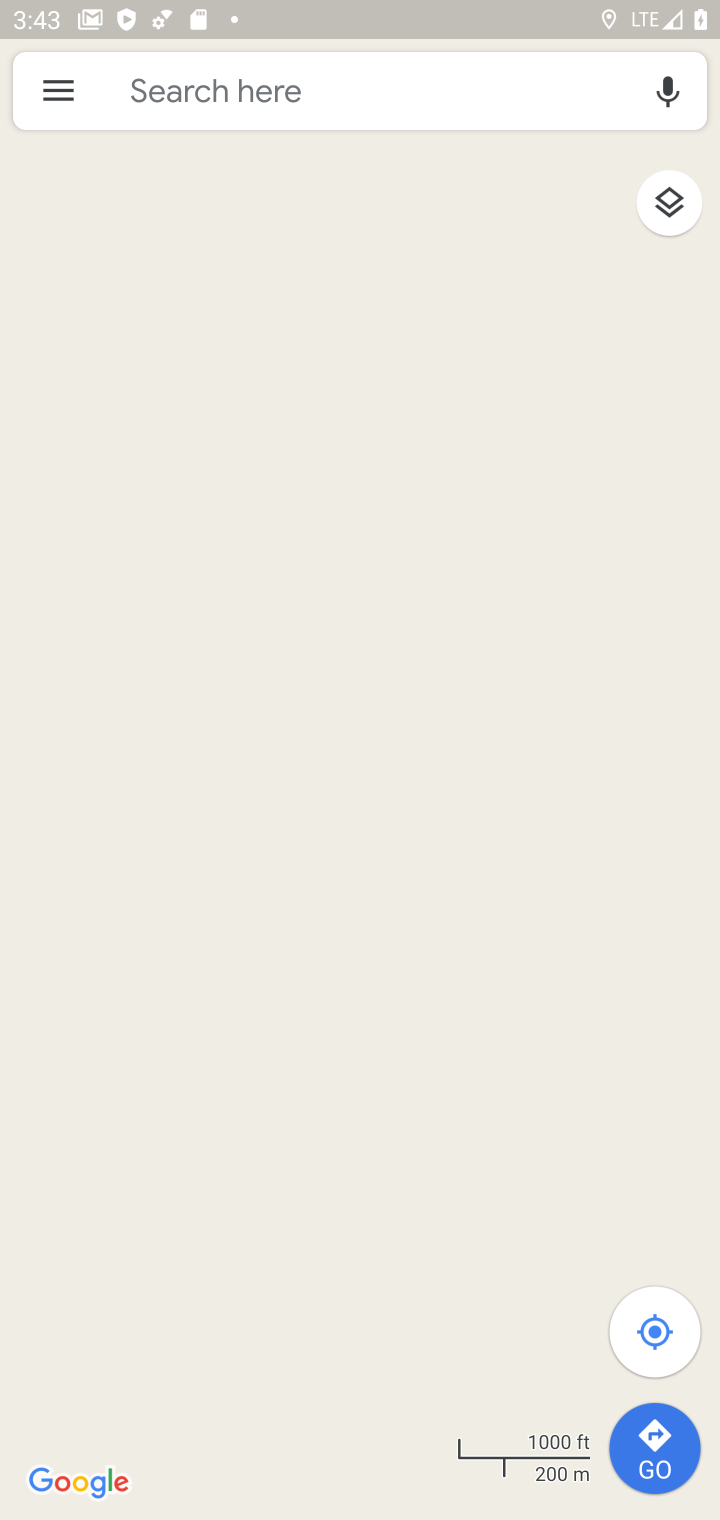
Step 32: task complete